Your task to perform on an android device: Go to location settings Image 0: 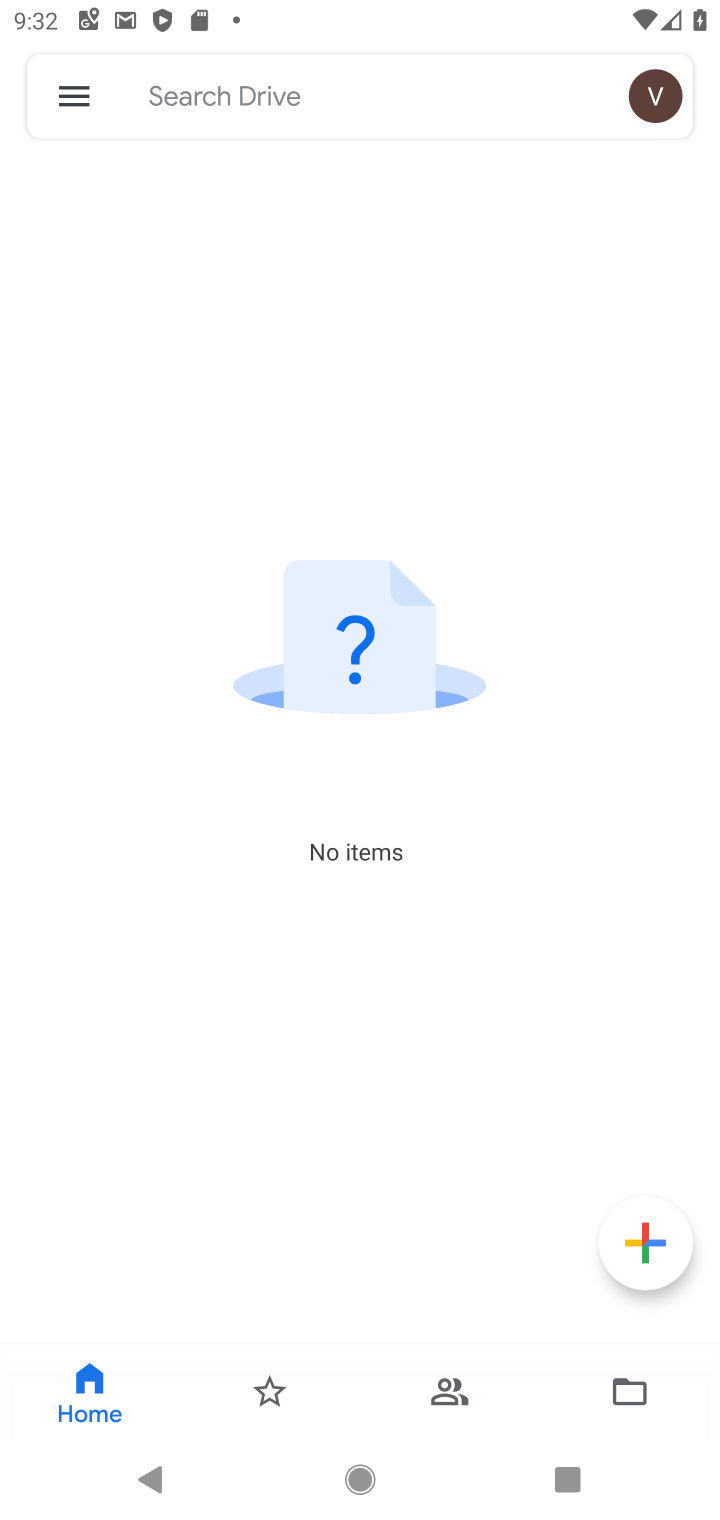
Step 0: press back button
Your task to perform on an android device: Go to location settings Image 1: 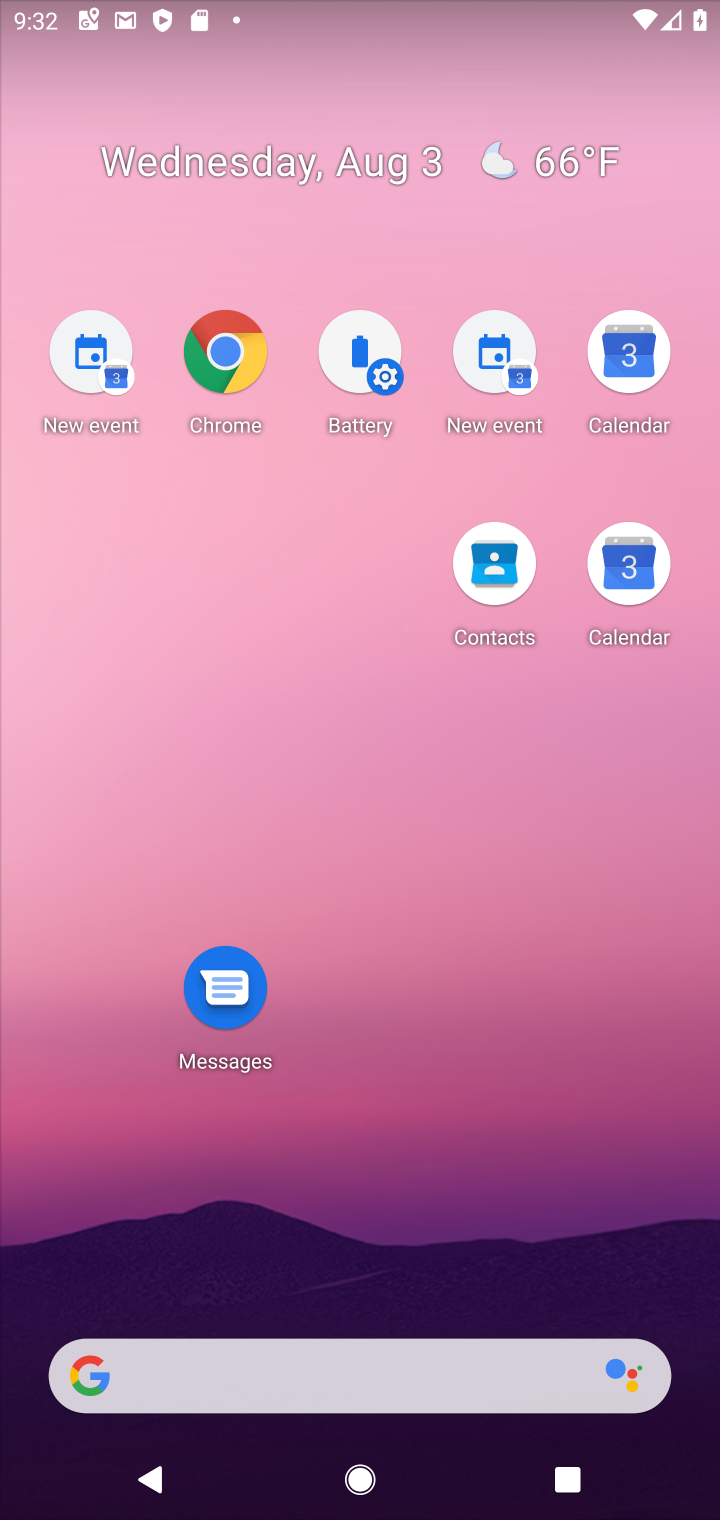
Step 1: drag from (362, 1376) to (321, 479)
Your task to perform on an android device: Go to location settings Image 2: 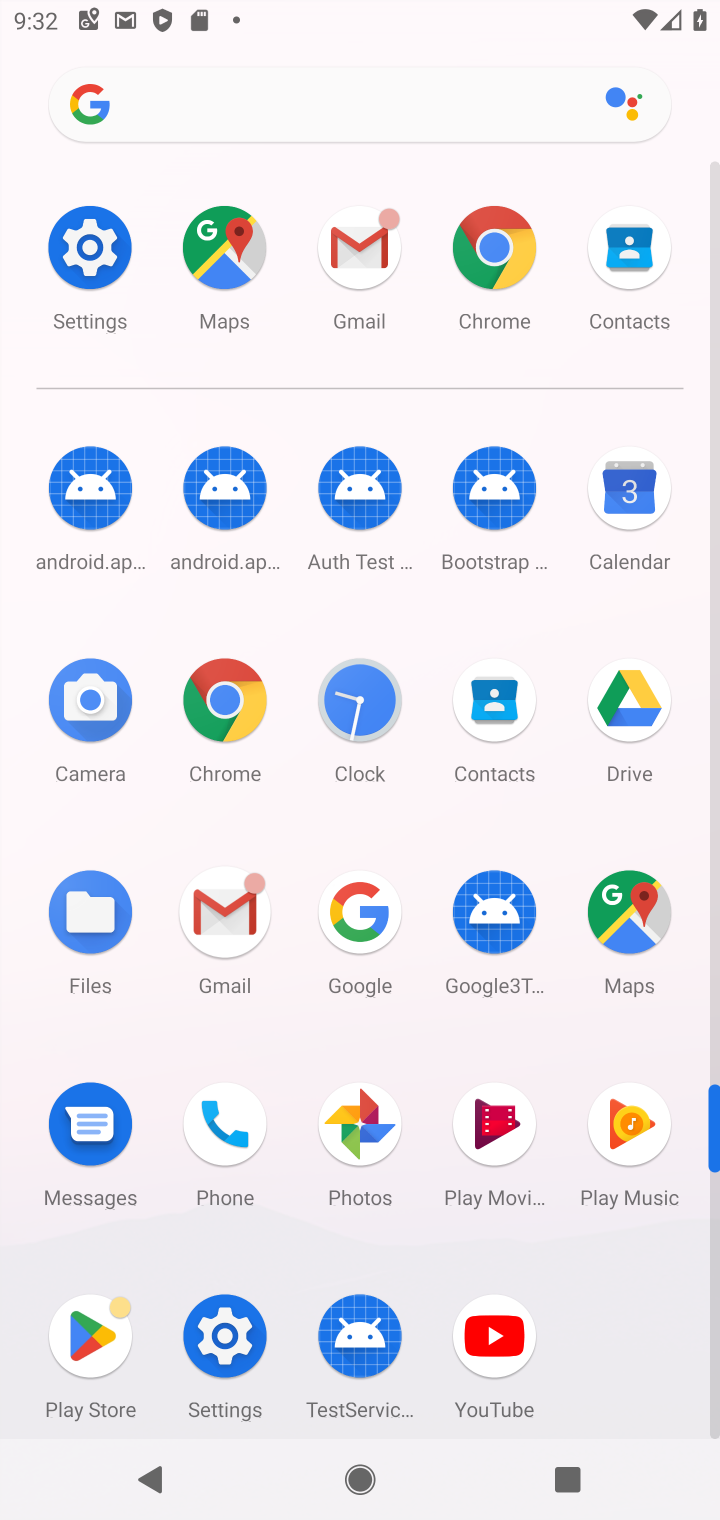
Step 2: click (70, 252)
Your task to perform on an android device: Go to location settings Image 3: 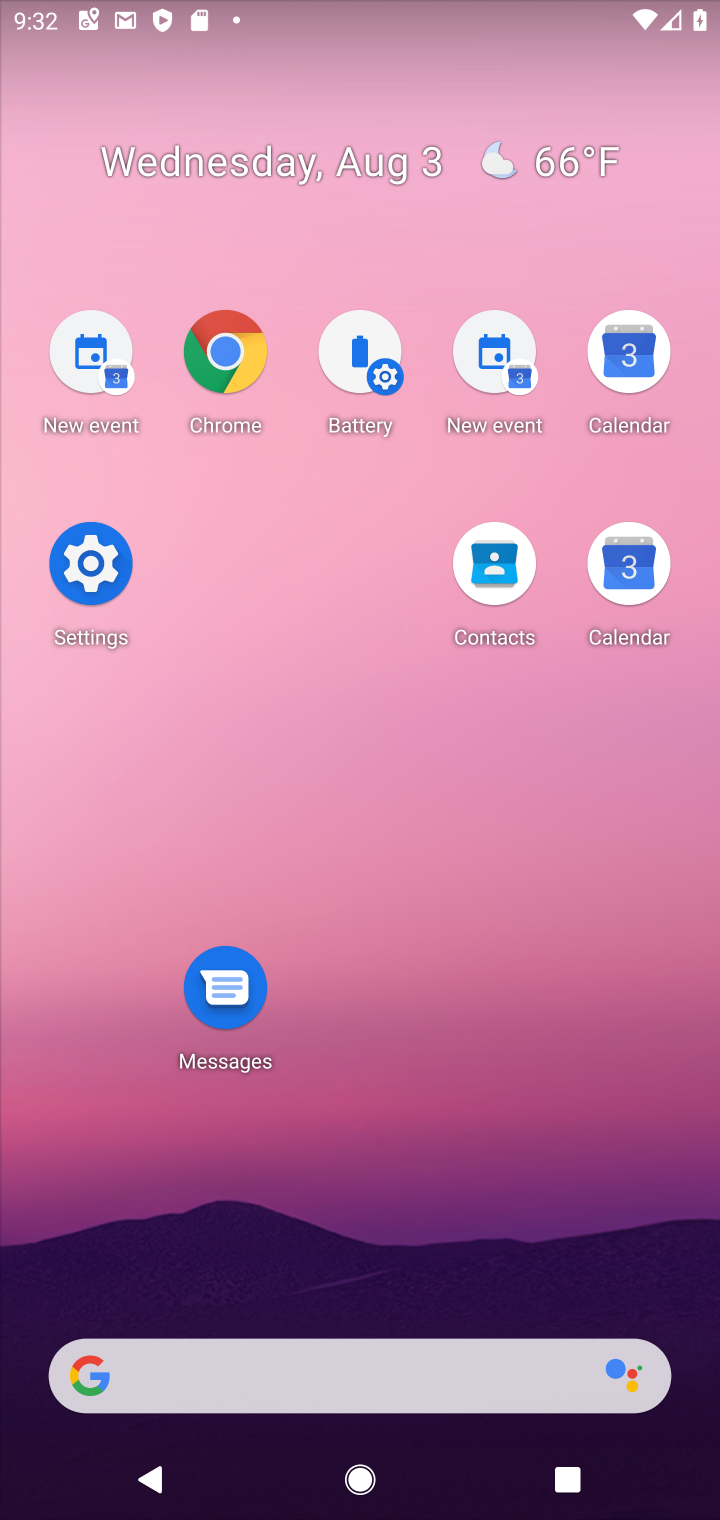
Step 3: drag from (255, 20) to (397, 278)
Your task to perform on an android device: Go to location settings Image 4: 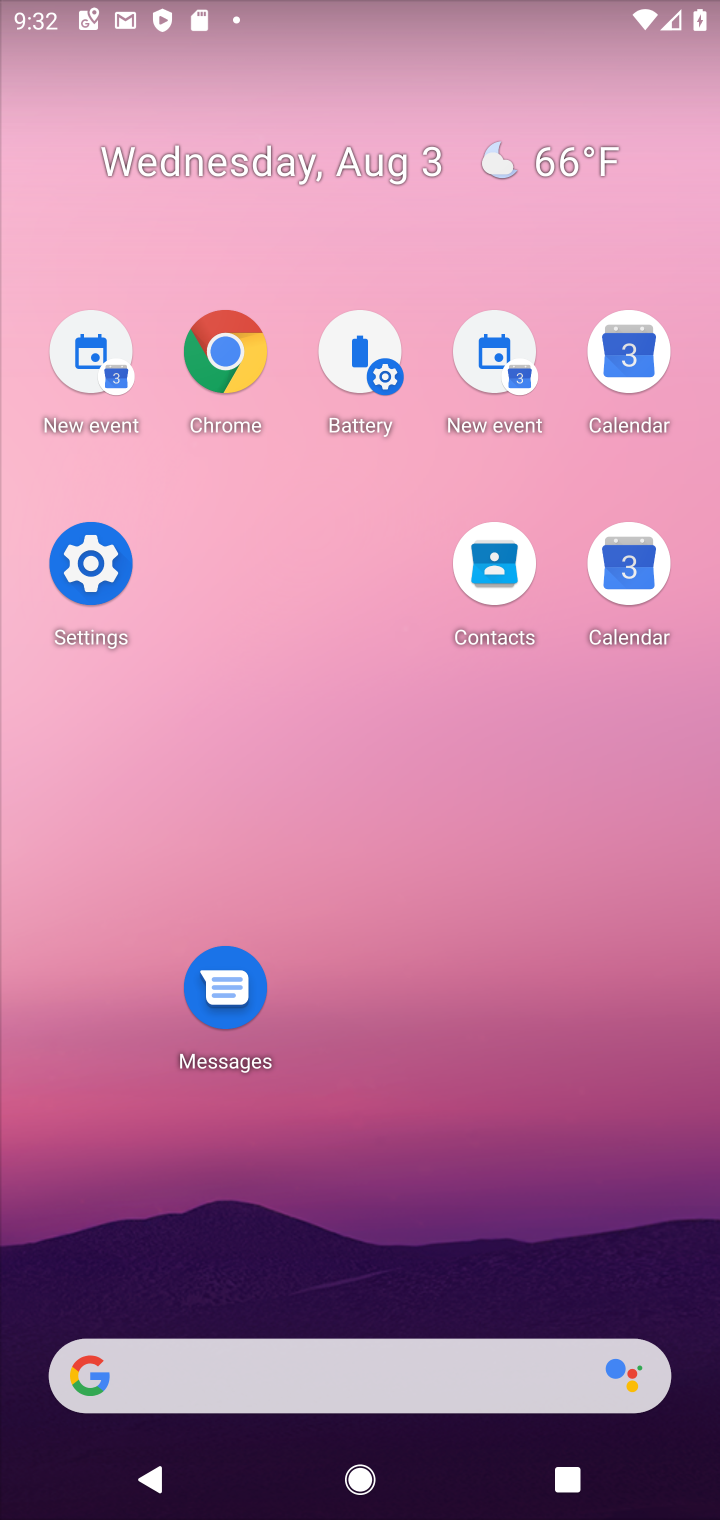
Step 4: drag from (373, 391) to (76, 234)
Your task to perform on an android device: Go to location settings Image 5: 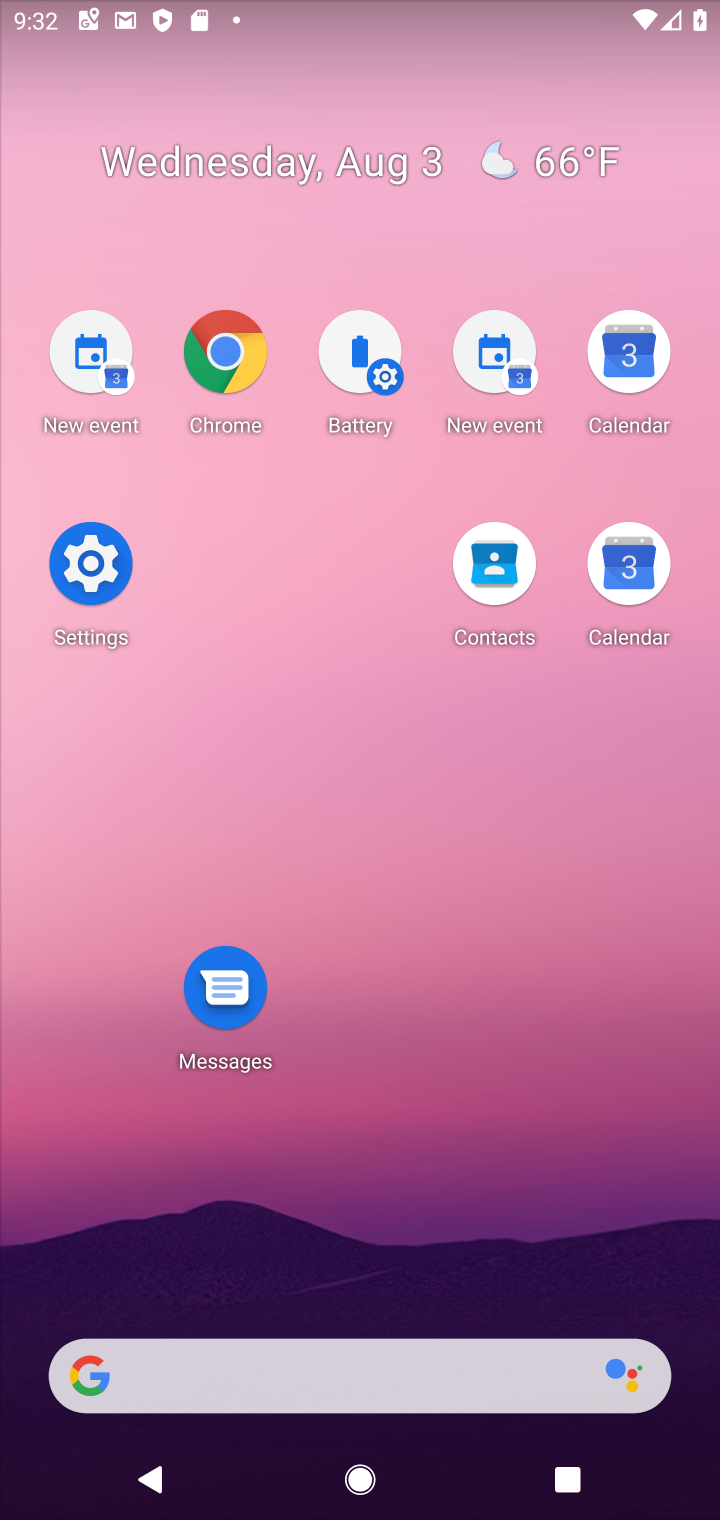
Step 5: drag from (489, 1159) to (538, 376)
Your task to perform on an android device: Go to location settings Image 6: 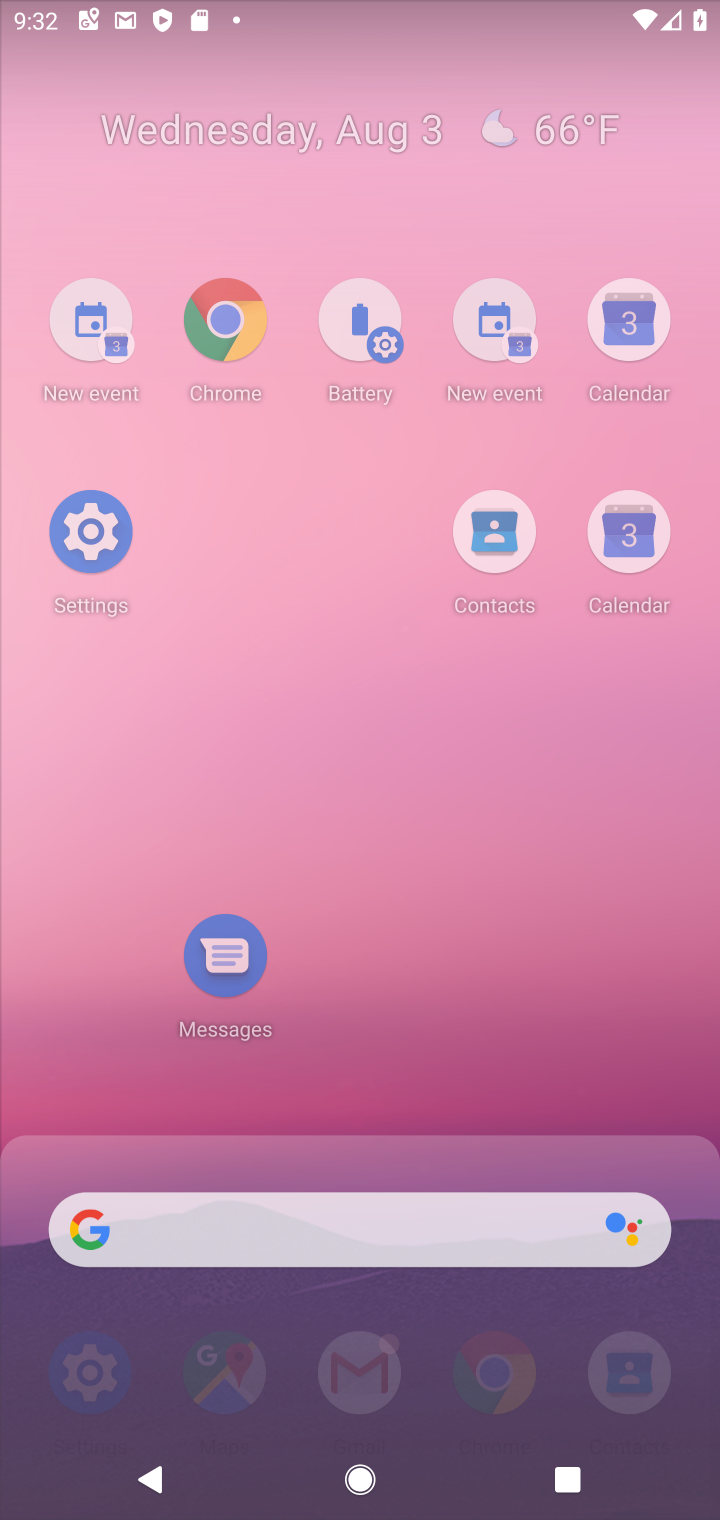
Step 6: drag from (466, 125) to (583, 272)
Your task to perform on an android device: Go to location settings Image 7: 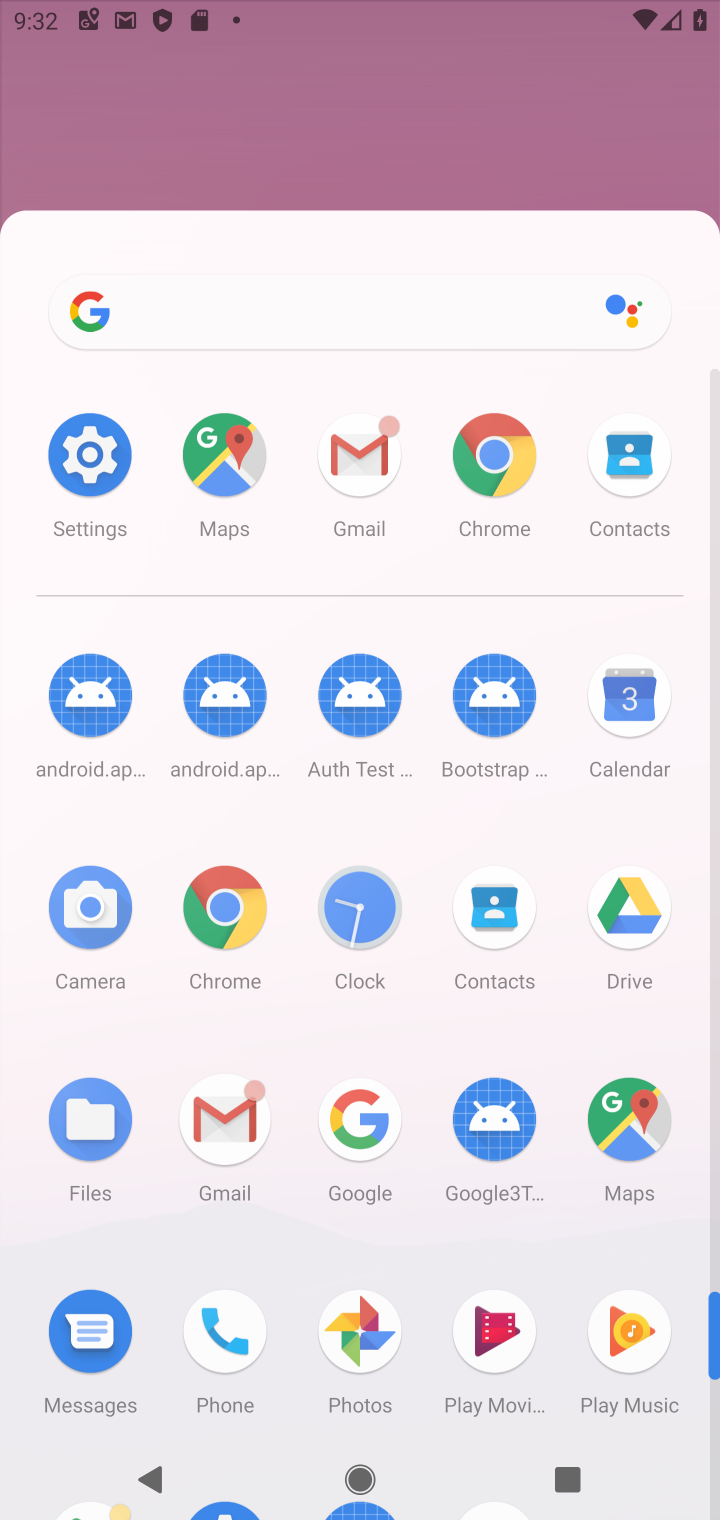
Step 7: drag from (491, 683) to (380, 296)
Your task to perform on an android device: Go to location settings Image 8: 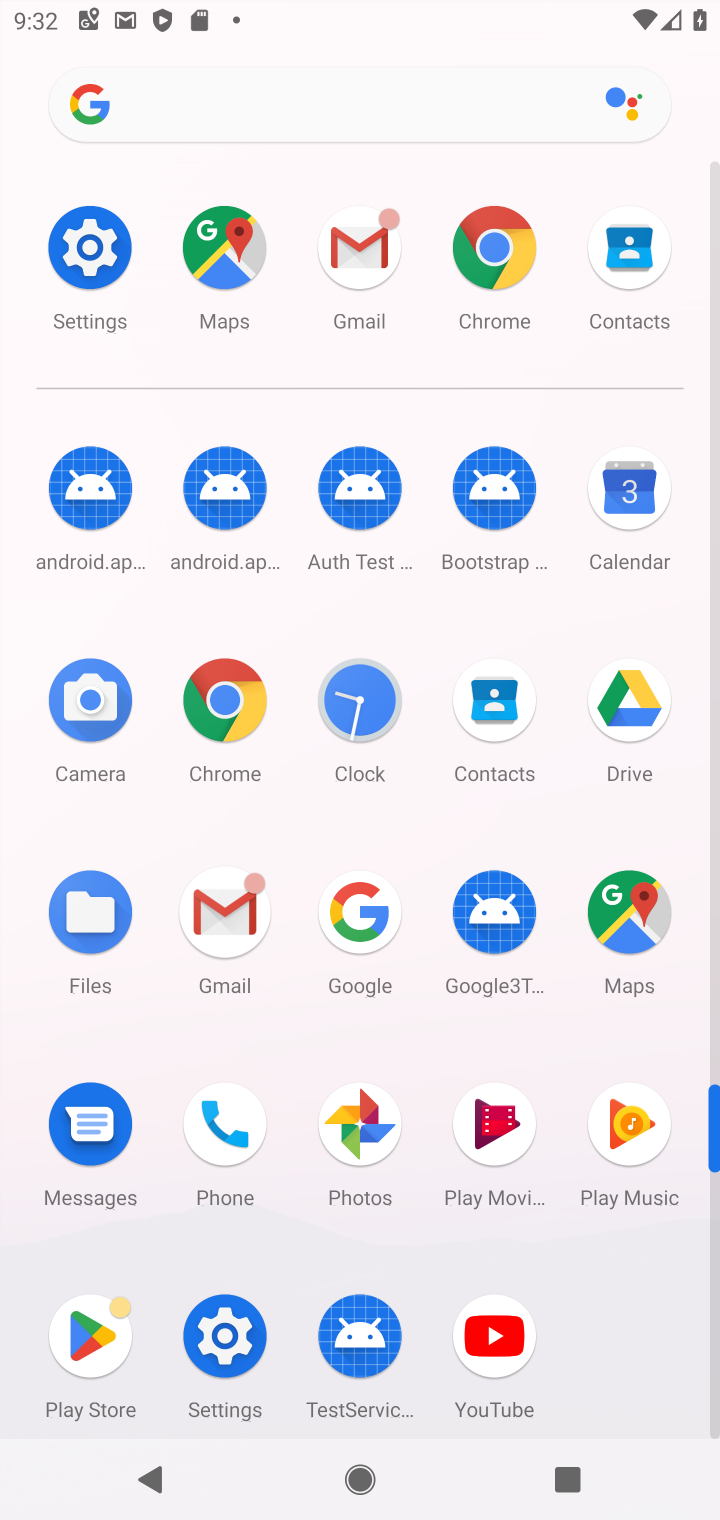
Step 8: drag from (87, 266) to (311, 0)
Your task to perform on an android device: Go to location settings Image 9: 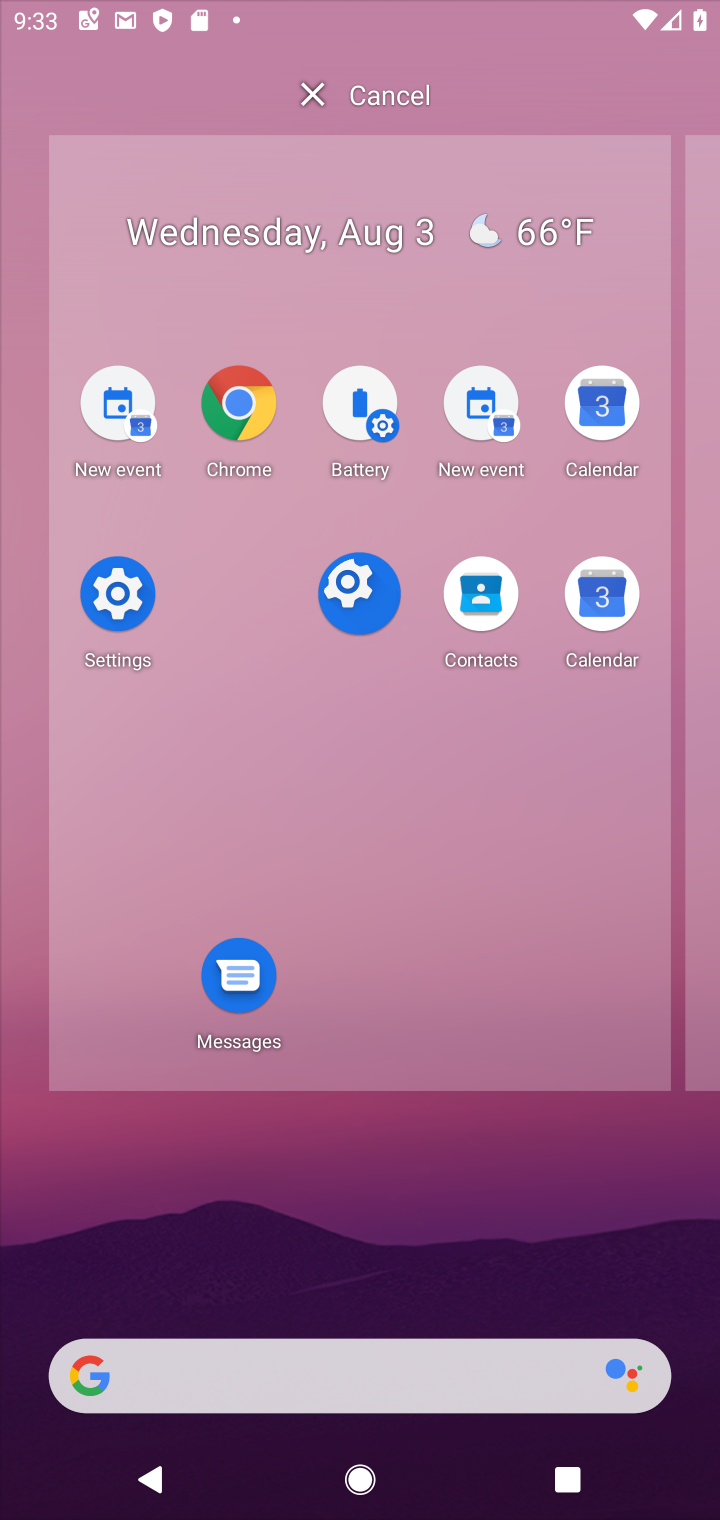
Step 9: click (310, 90)
Your task to perform on an android device: Go to location settings Image 10: 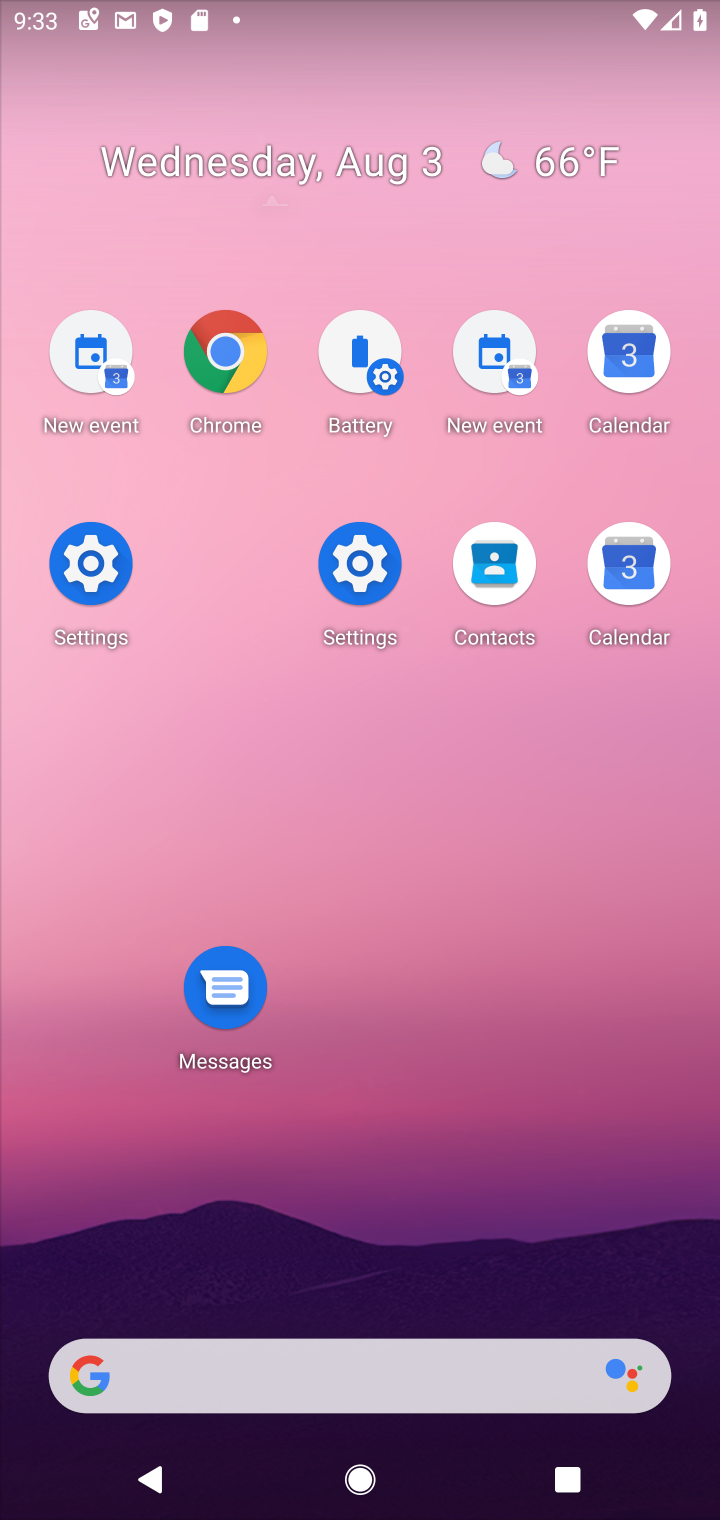
Step 10: click (312, 94)
Your task to perform on an android device: Go to location settings Image 11: 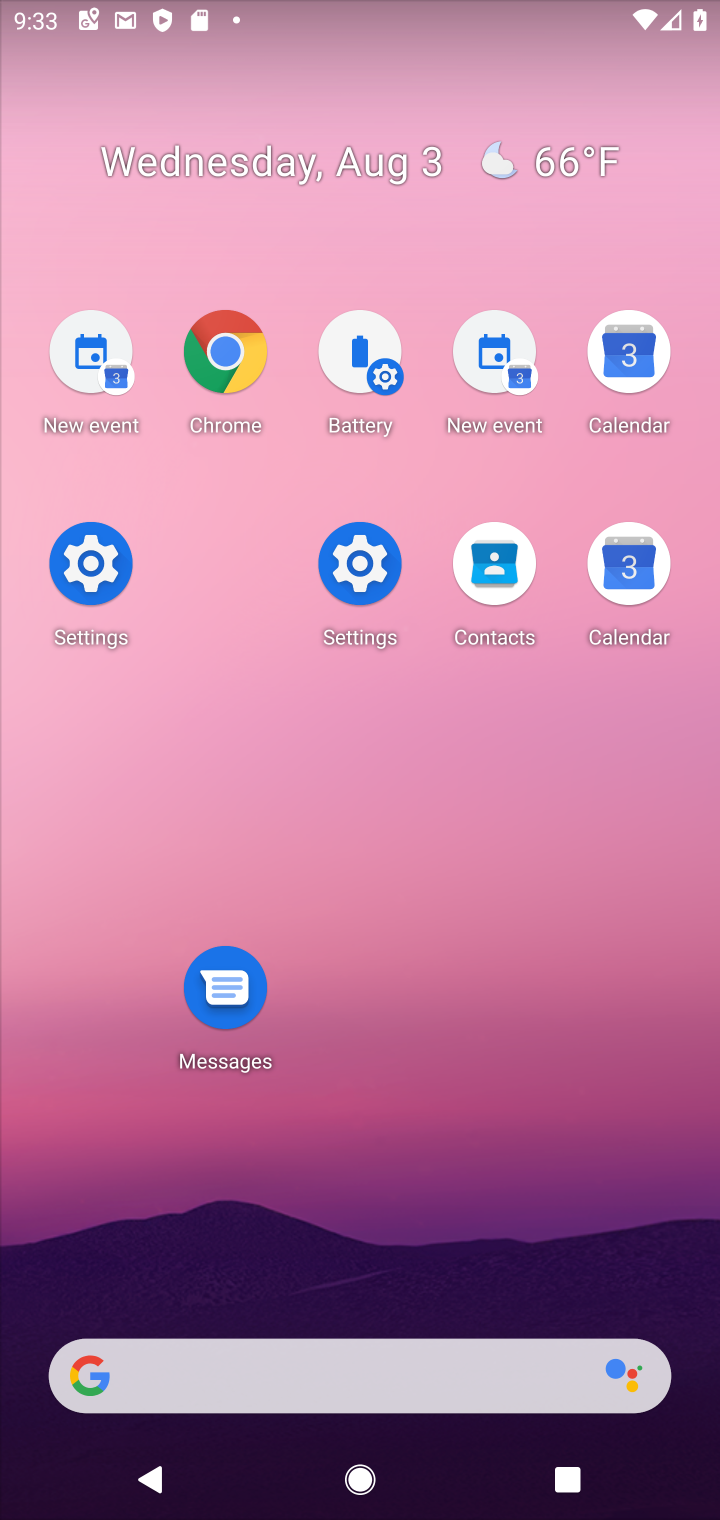
Step 11: drag from (378, 578) to (463, 361)
Your task to perform on an android device: Go to location settings Image 12: 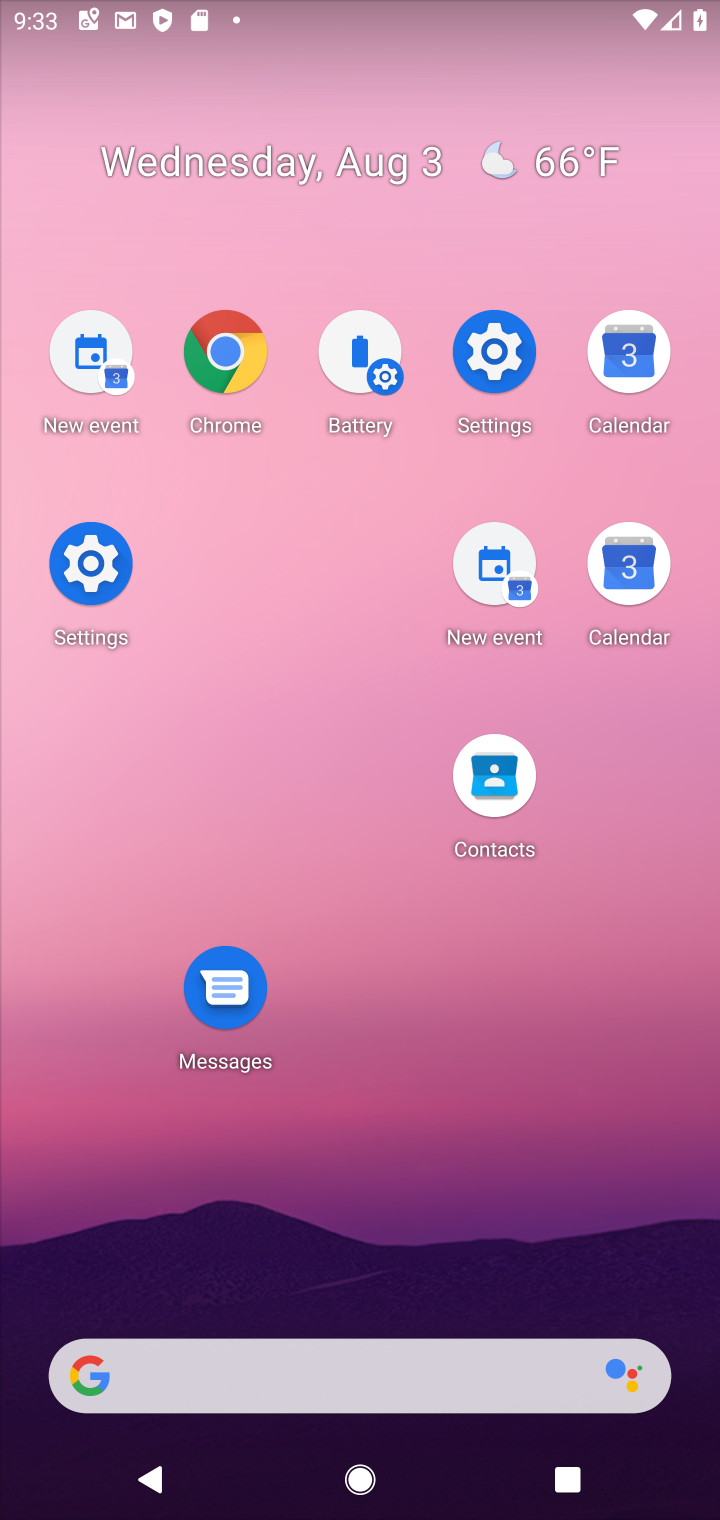
Step 12: click (293, 123)
Your task to perform on an android device: Go to location settings Image 13: 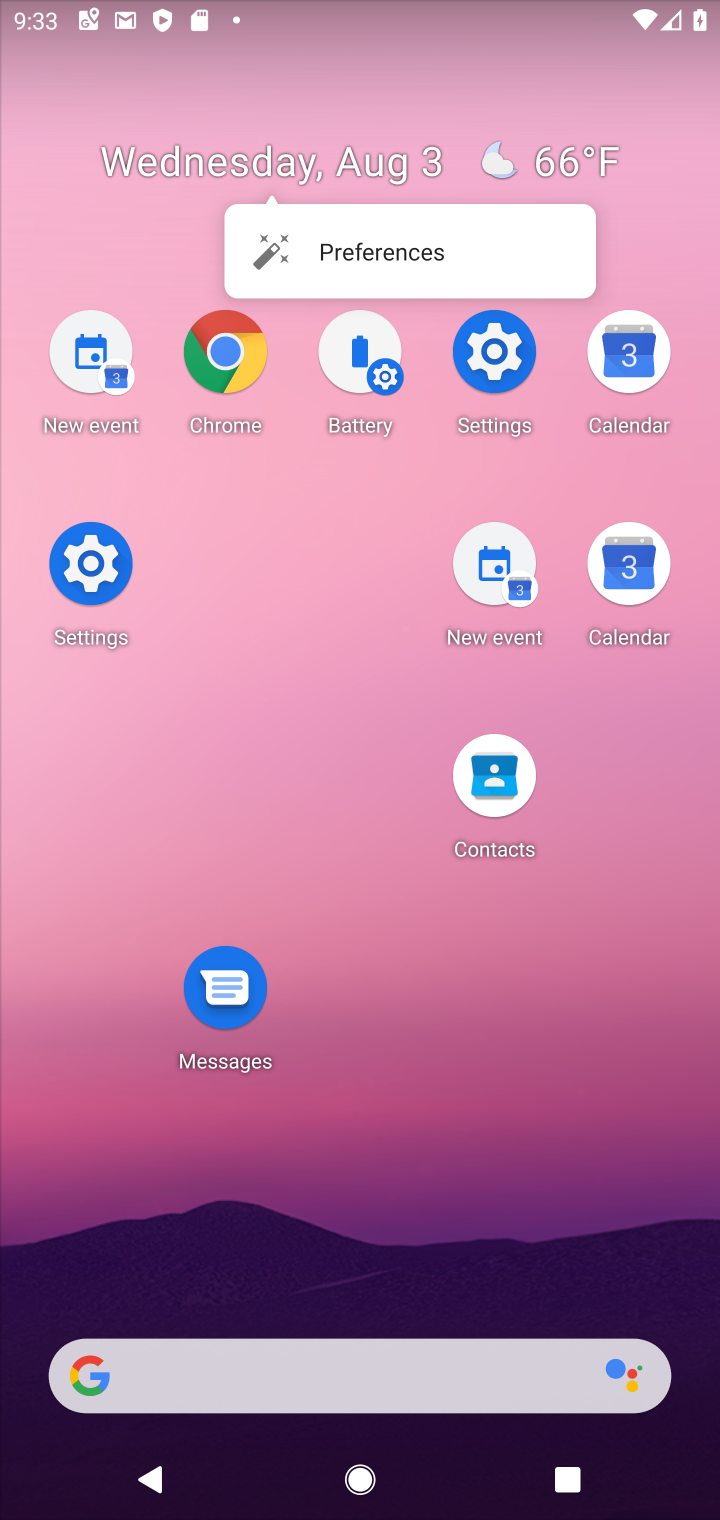
Step 13: click (490, 348)
Your task to perform on an android device: Go to location settings Image 14: 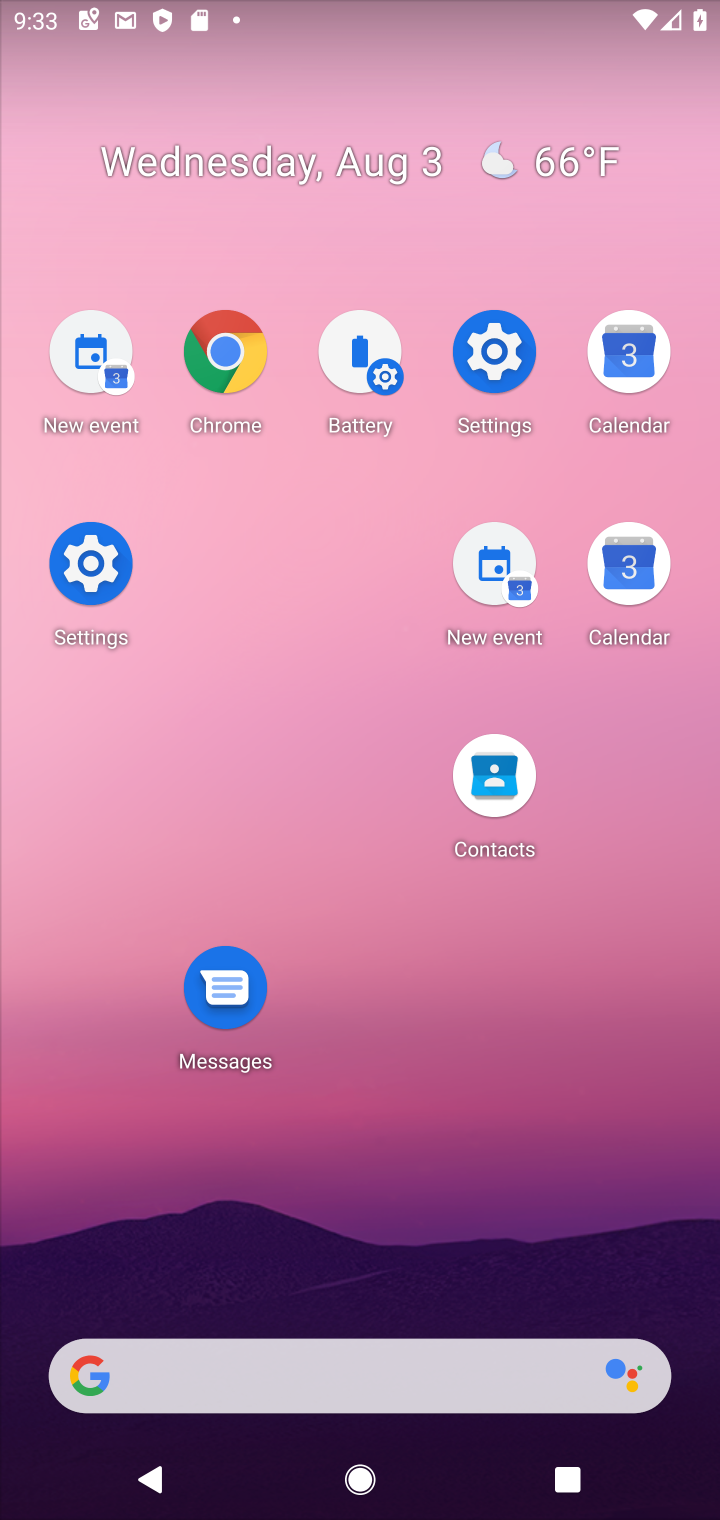
Step 14: click (490, 348)
Your task to perform on an android device: Go to location settings Image 15: 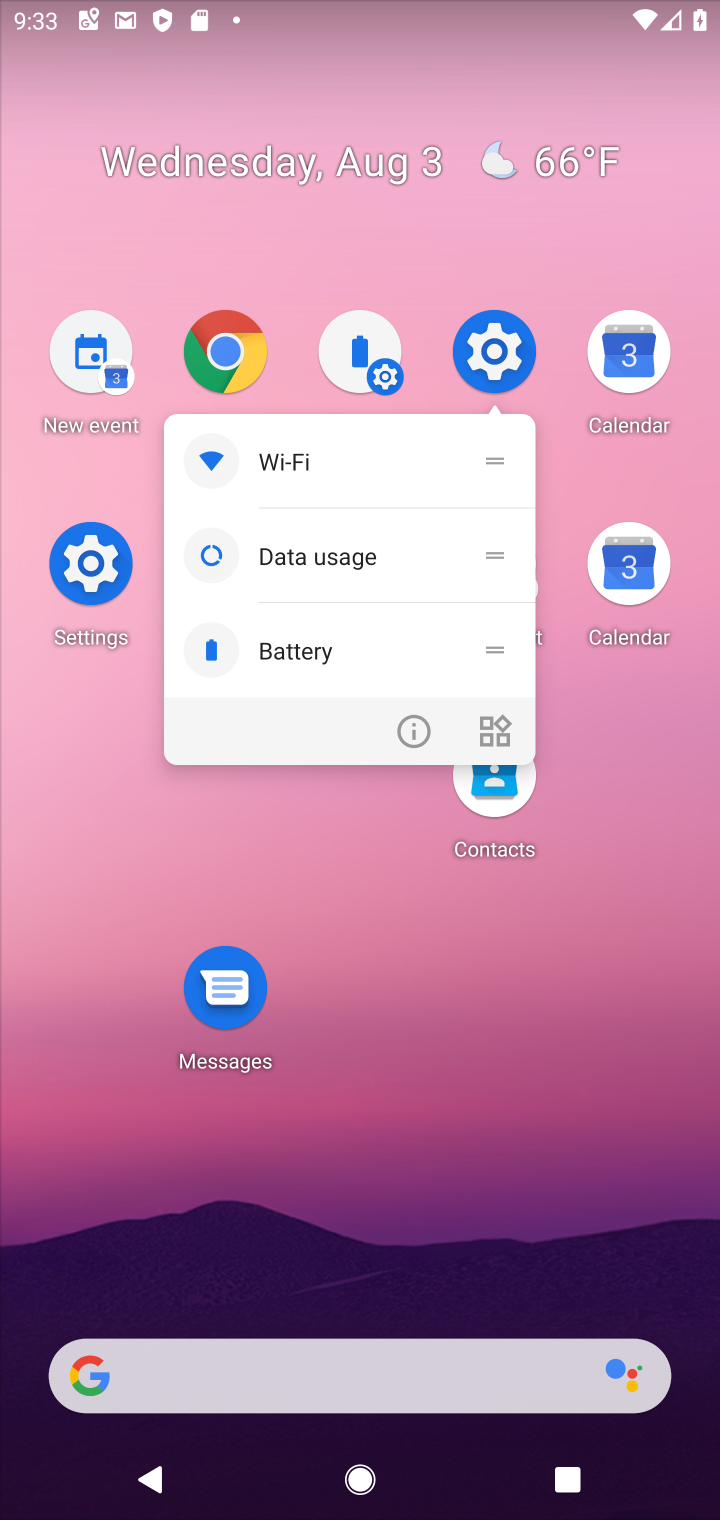
Step 15: click (481, 328)
Your task to perform on an android device: Go to location settings Image 16: 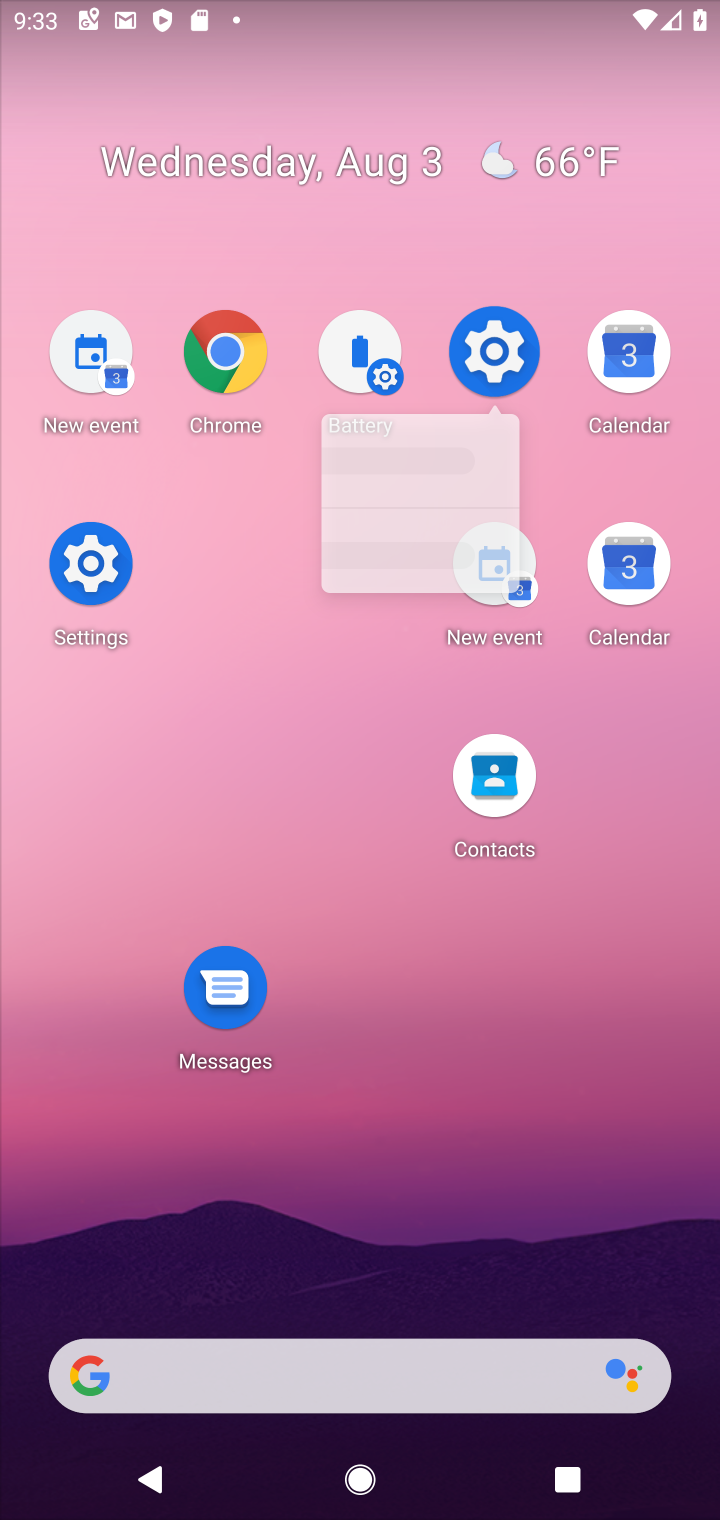
Step 16: click (522, 337)
Your task to perform on an android device: Go to location settings Image 17: 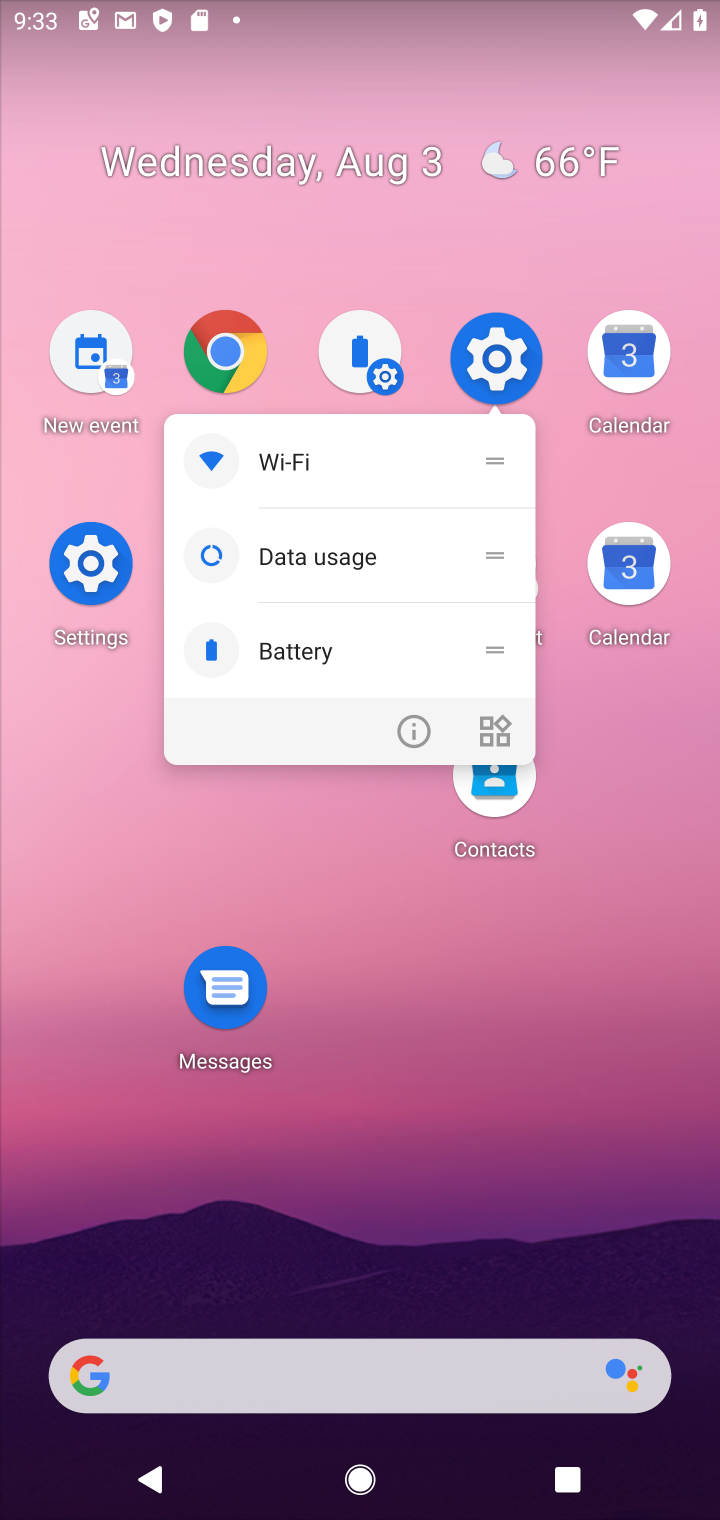
Step 17: click (510, 224)
Your task to perform on an android device: Go to location settings Image 18: 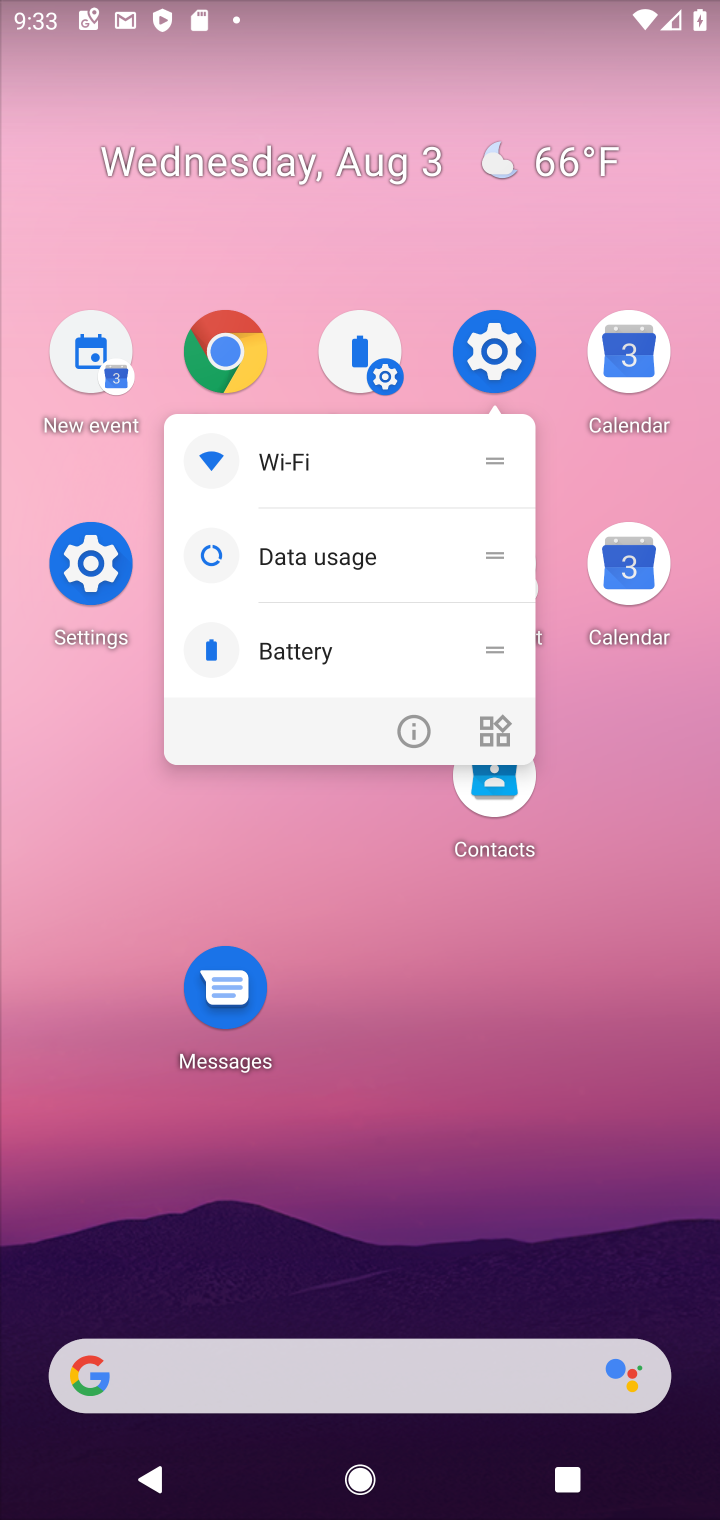
Step 18: click (290, 470)
Your task to perform on an android device: Go to location settings Image 19: 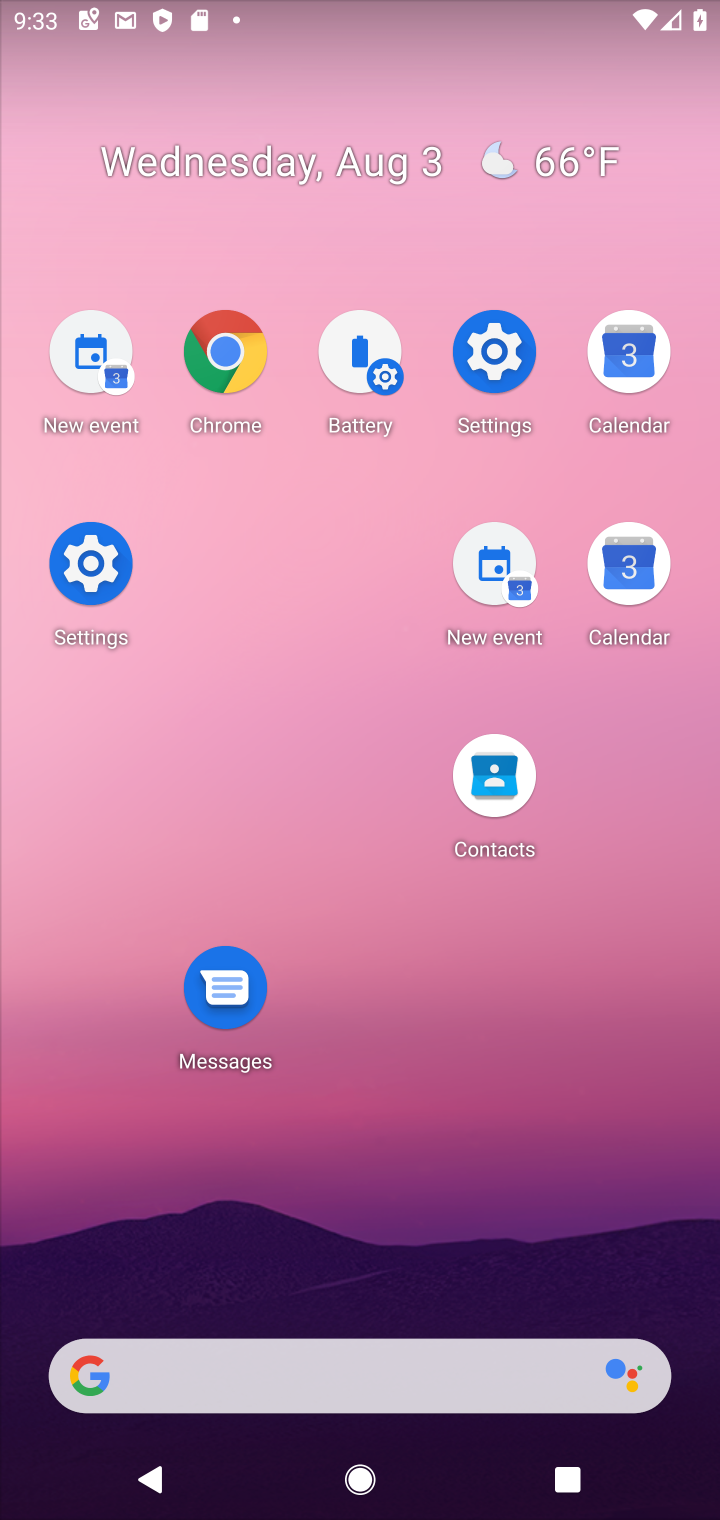
Step 19: click (261, 105)
Your task to perform on an android device: Go to location settings Image 20: 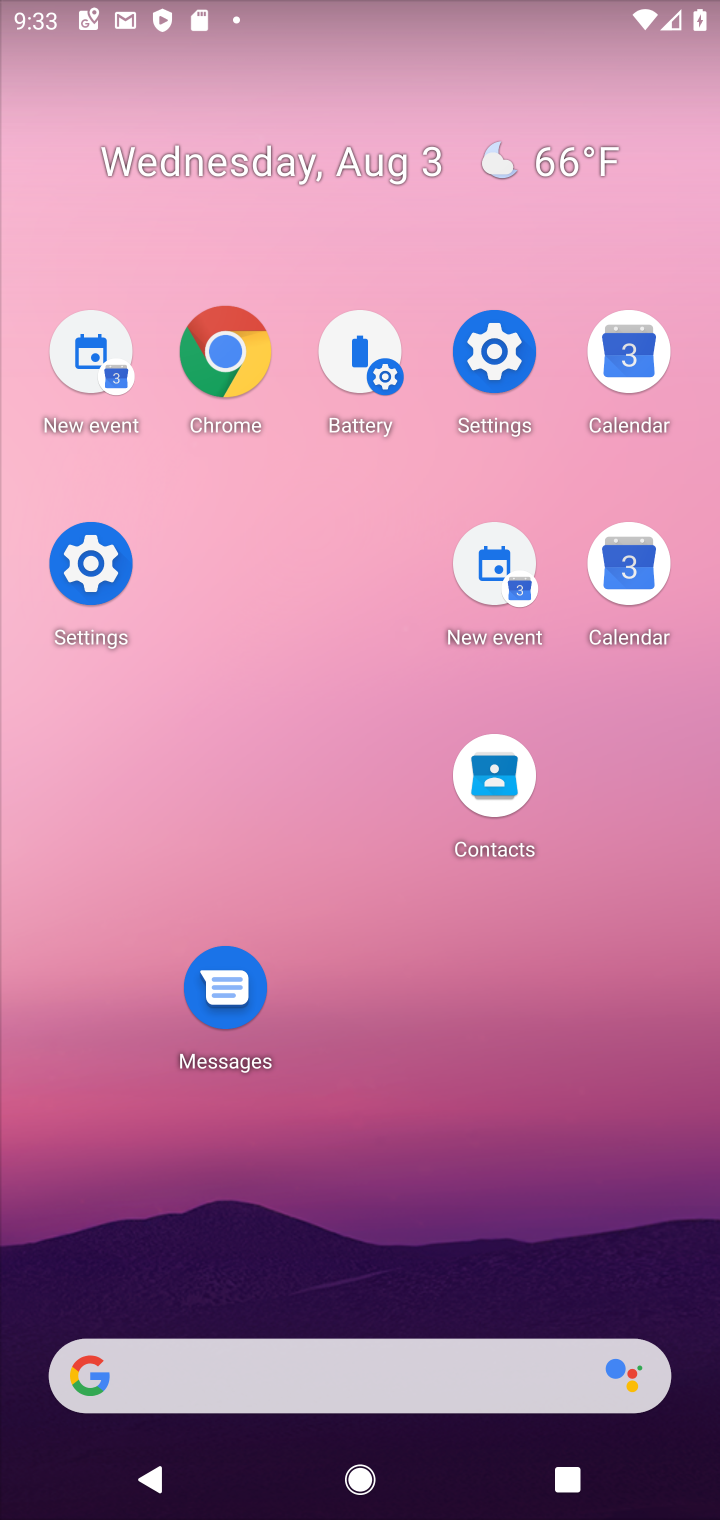
Step 20: click (309, 142)
Your task to perform on an android device: Go to location settings Image 21: 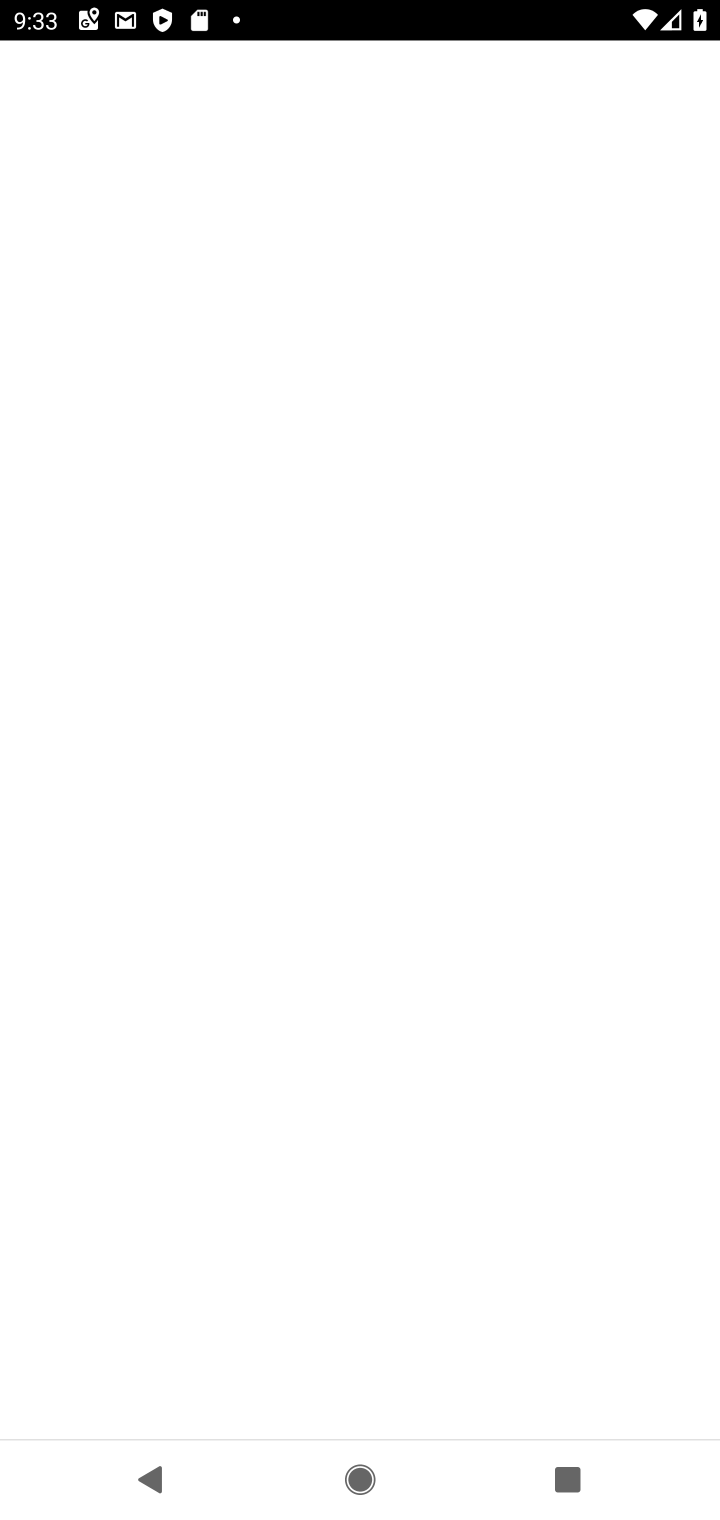
Step 21: click (497, 335)
Your task to perform on an android device: Go to location settings Image 22: 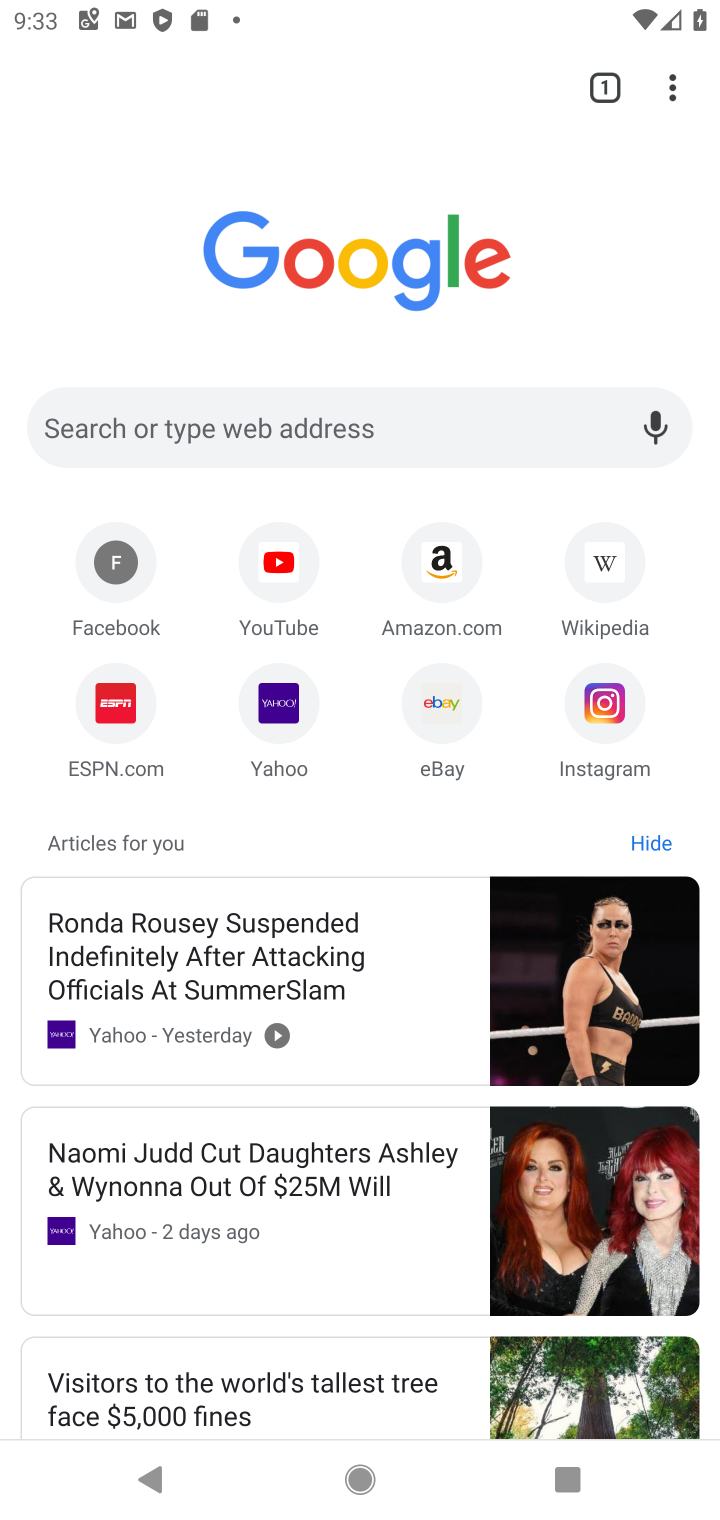
Step 22: press back button
Your task to perform on an android device: Go to location settings Image 23: 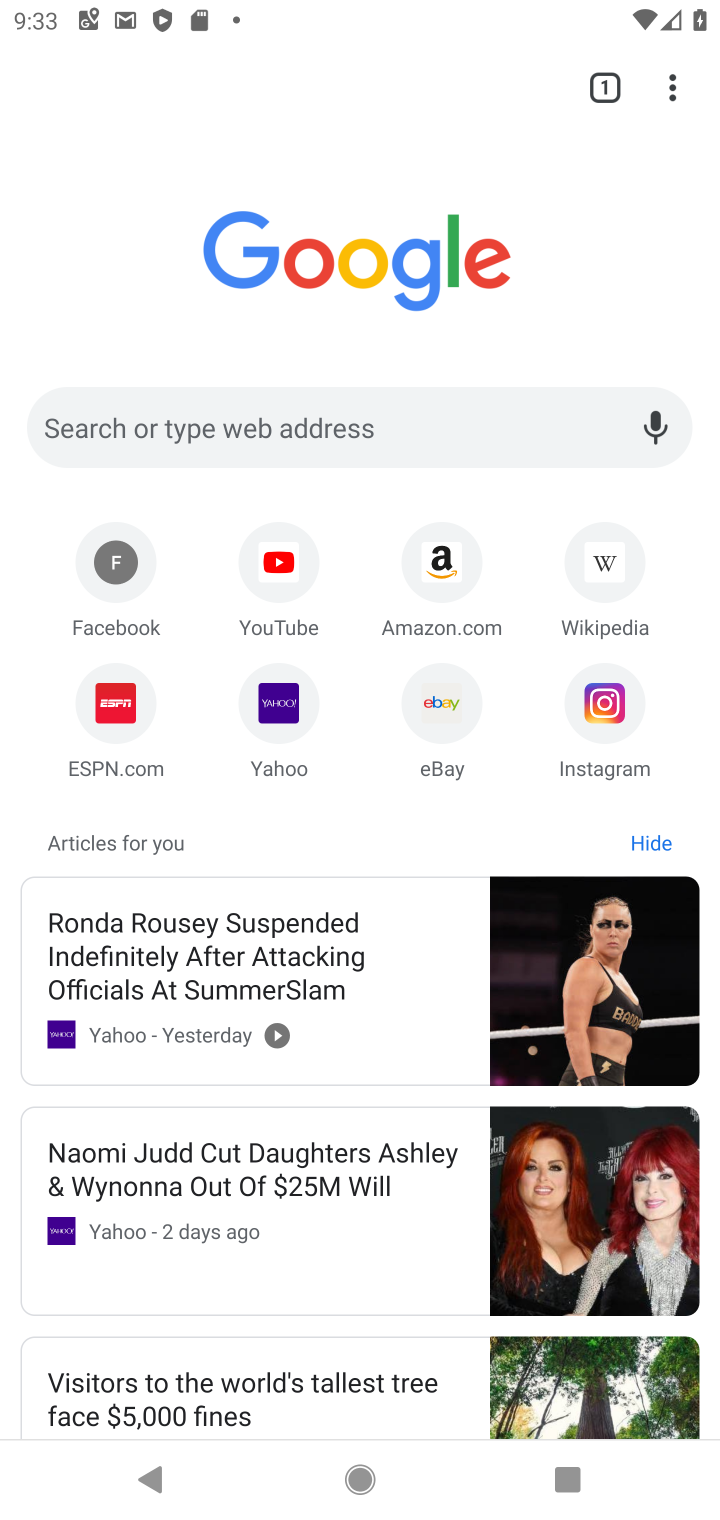
Step 23: press back button
Your task to perform on an android device: Go to location settings Image 24: 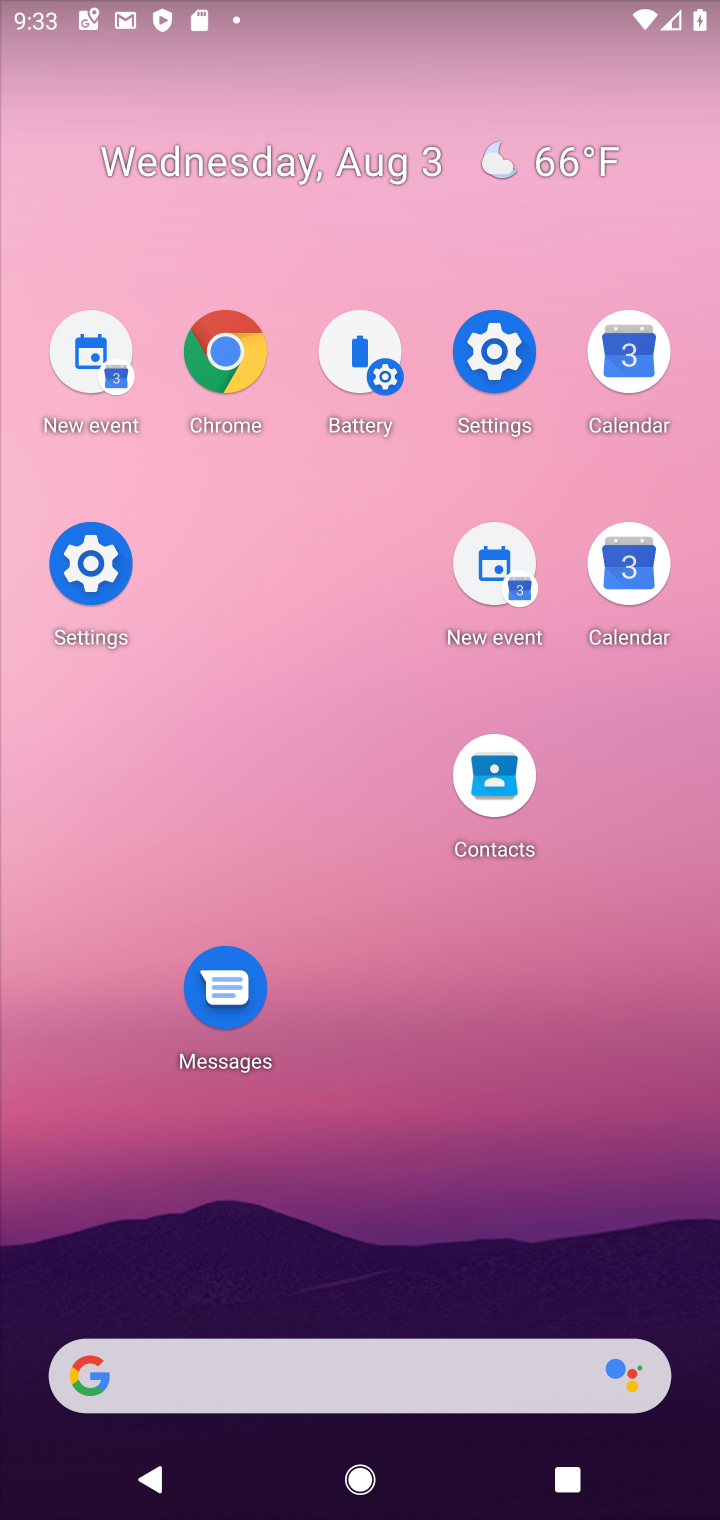
Step 24: press back button
Your task to perform on an android device: Go to location settings Image 25: 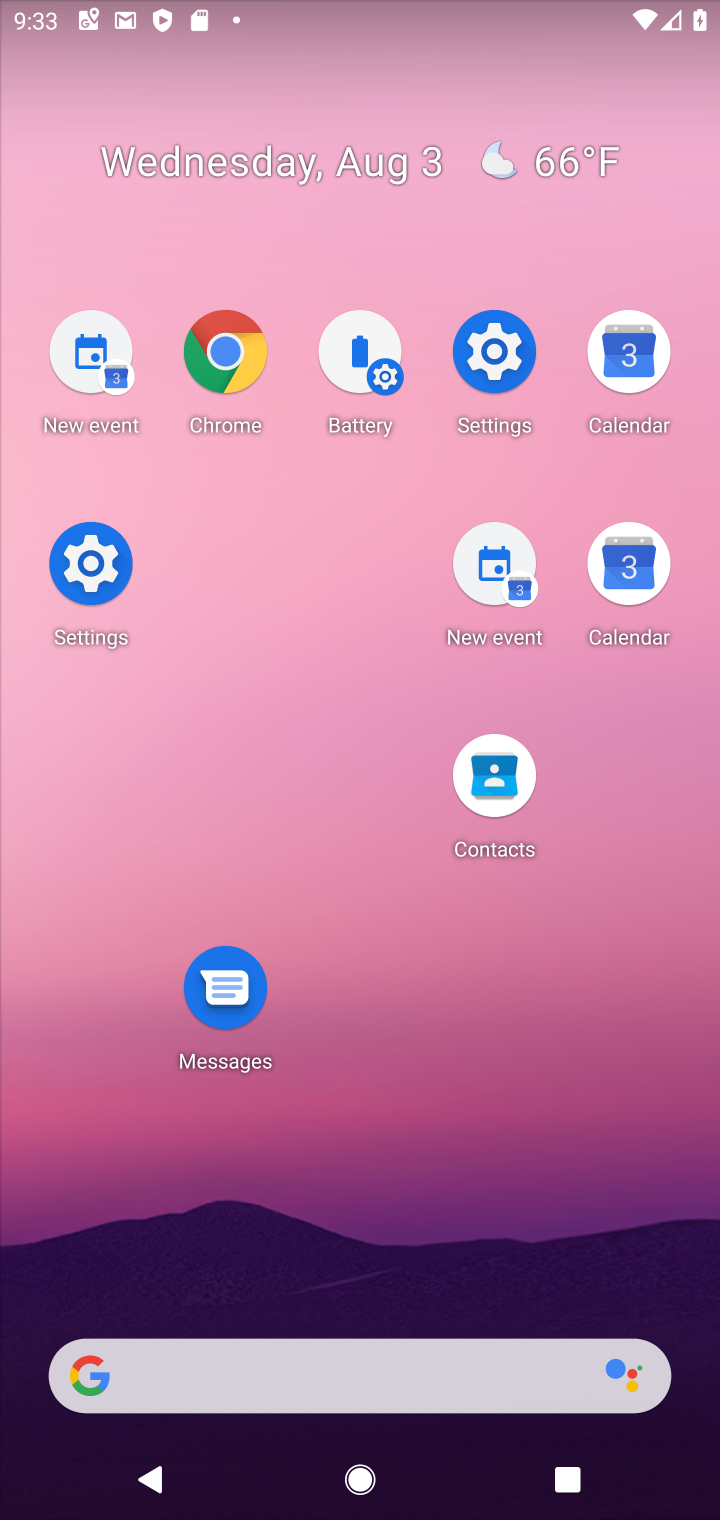
Step 25: click (479, 323)
Your task to perform on an android device: Go to location settings Image 26: 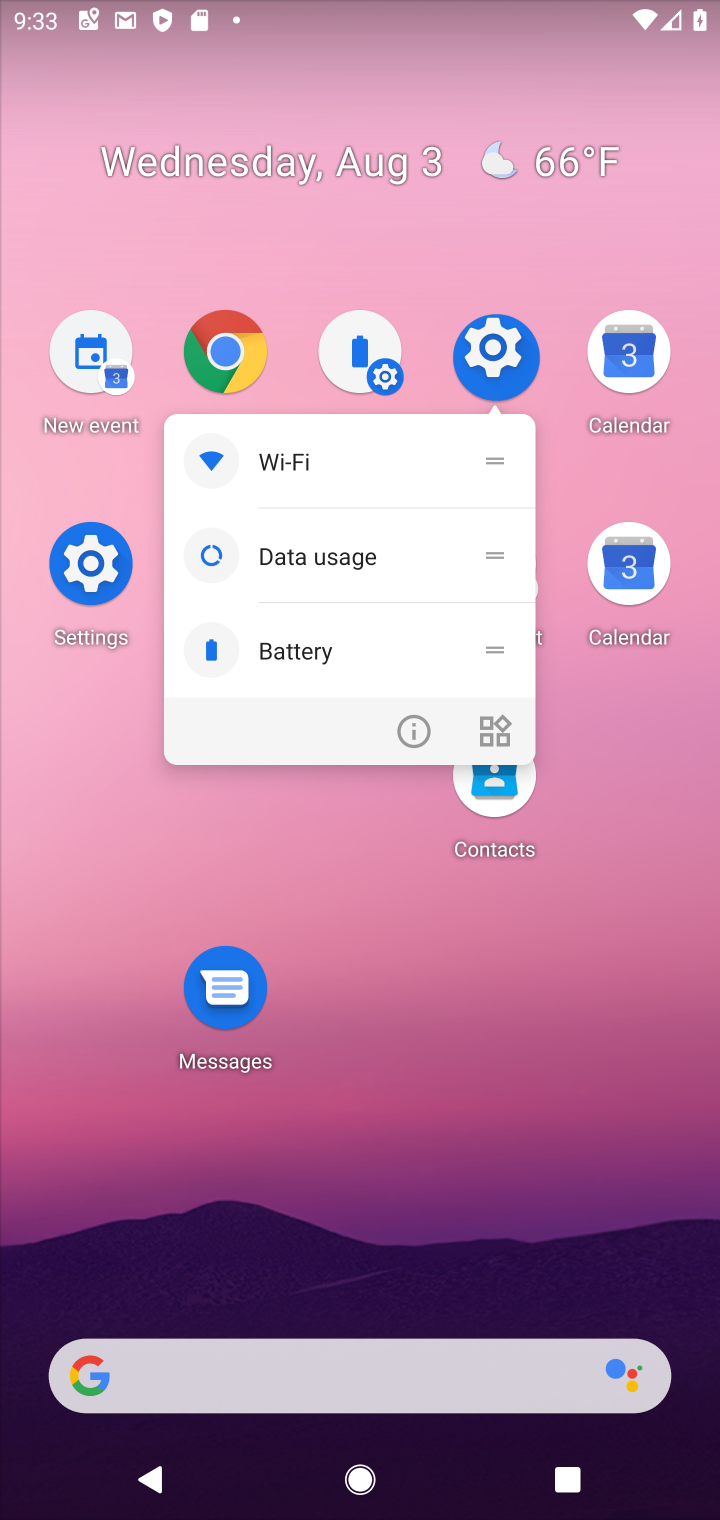
Step 26: click (484, 363)
Your task to perform on an android device: Go to location settings Image 27: 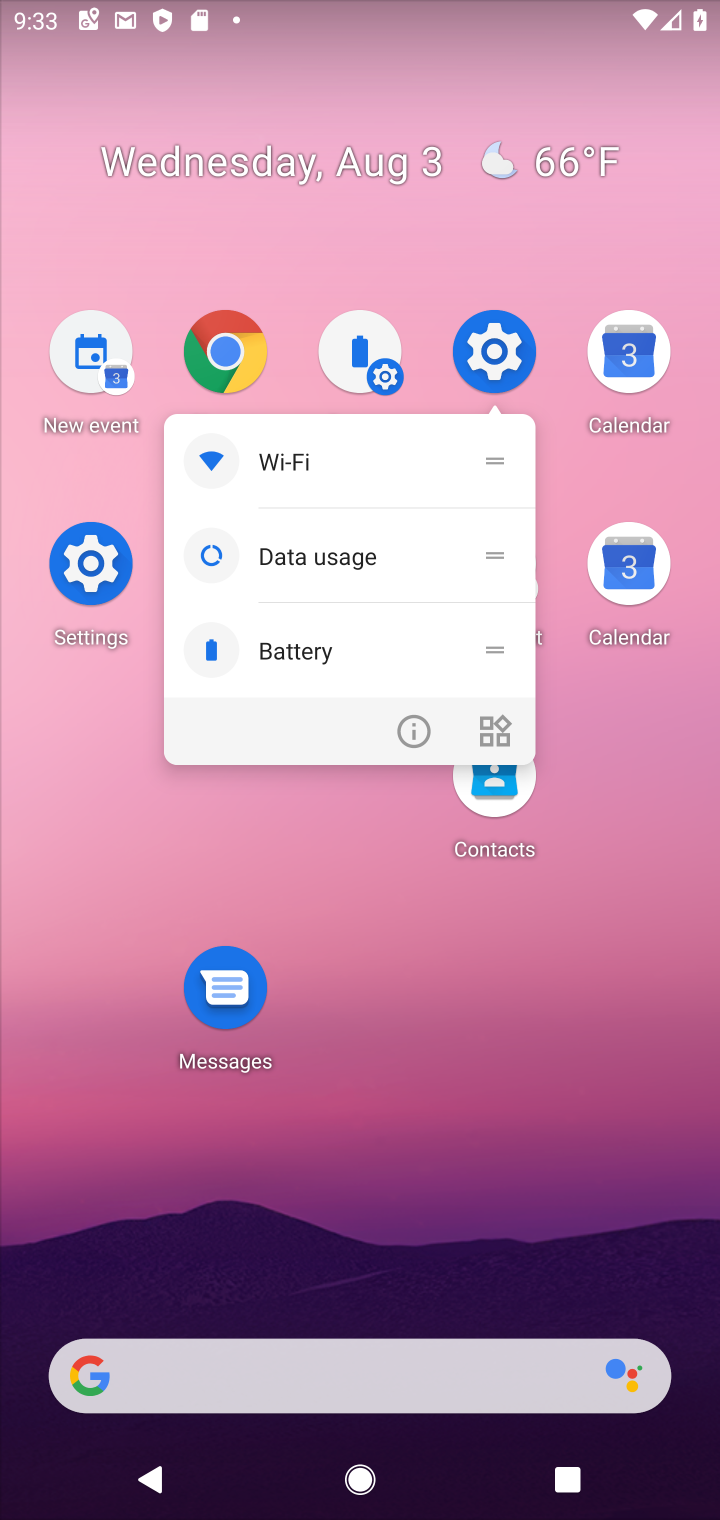
Step 27: click (508, 369)
Your task to perform on an android device: Go to location settings Image 28: 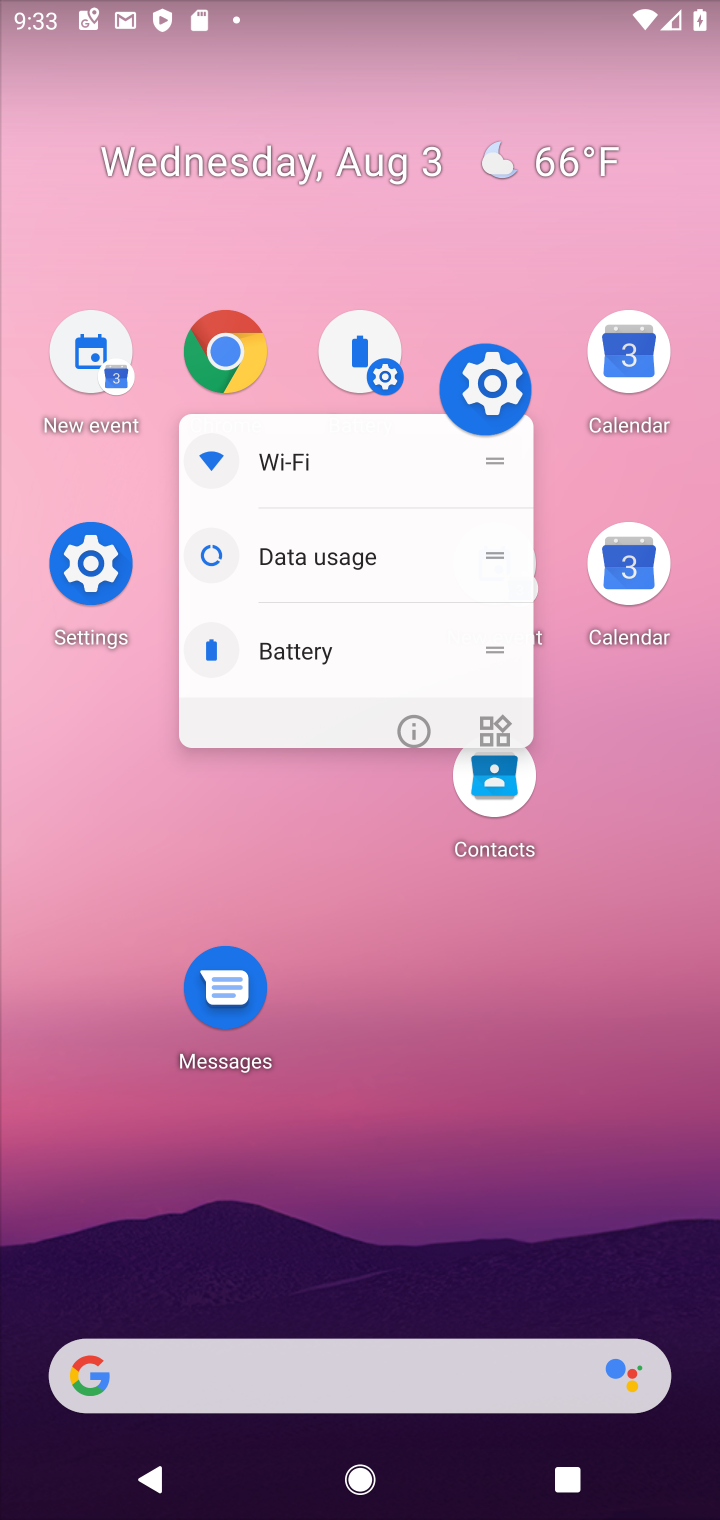
Step 28: click (494, 346)
Your task to perform on an android device: Go to location settings Image 29: 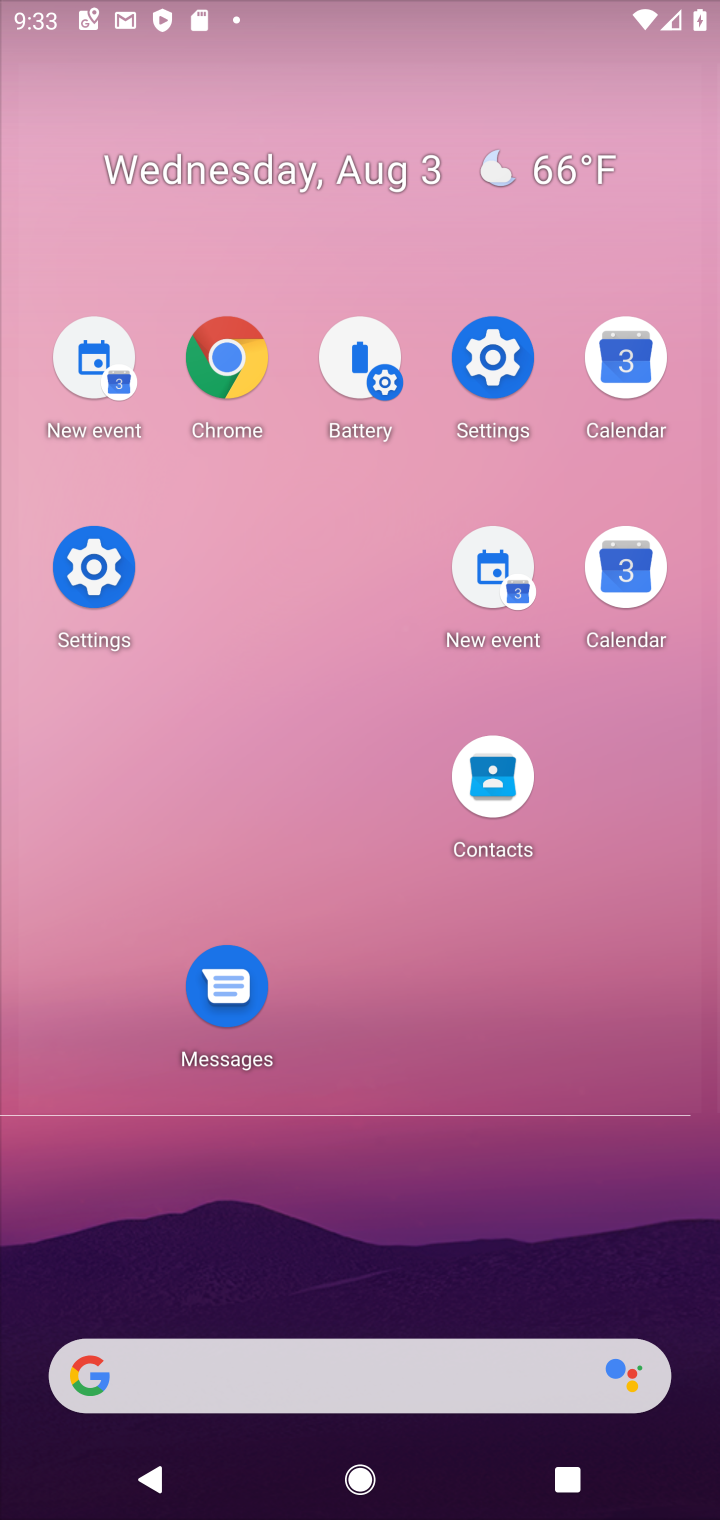
Step 29: click (492, 416)
Your task to perform on an android device: Go to location settings Image 30: 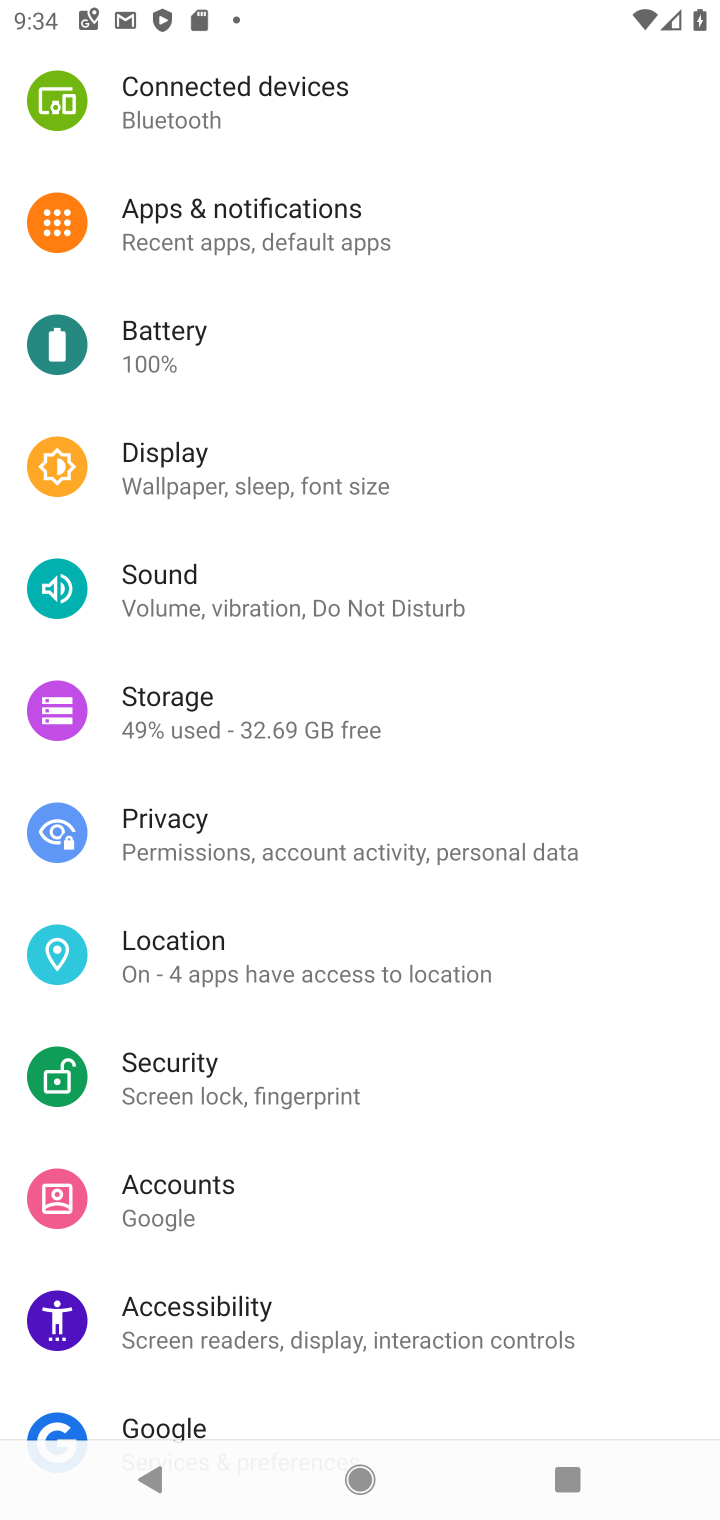
Step 30: click (195, 945)
Your task to perform on an android device: Go to location settings Image 31: 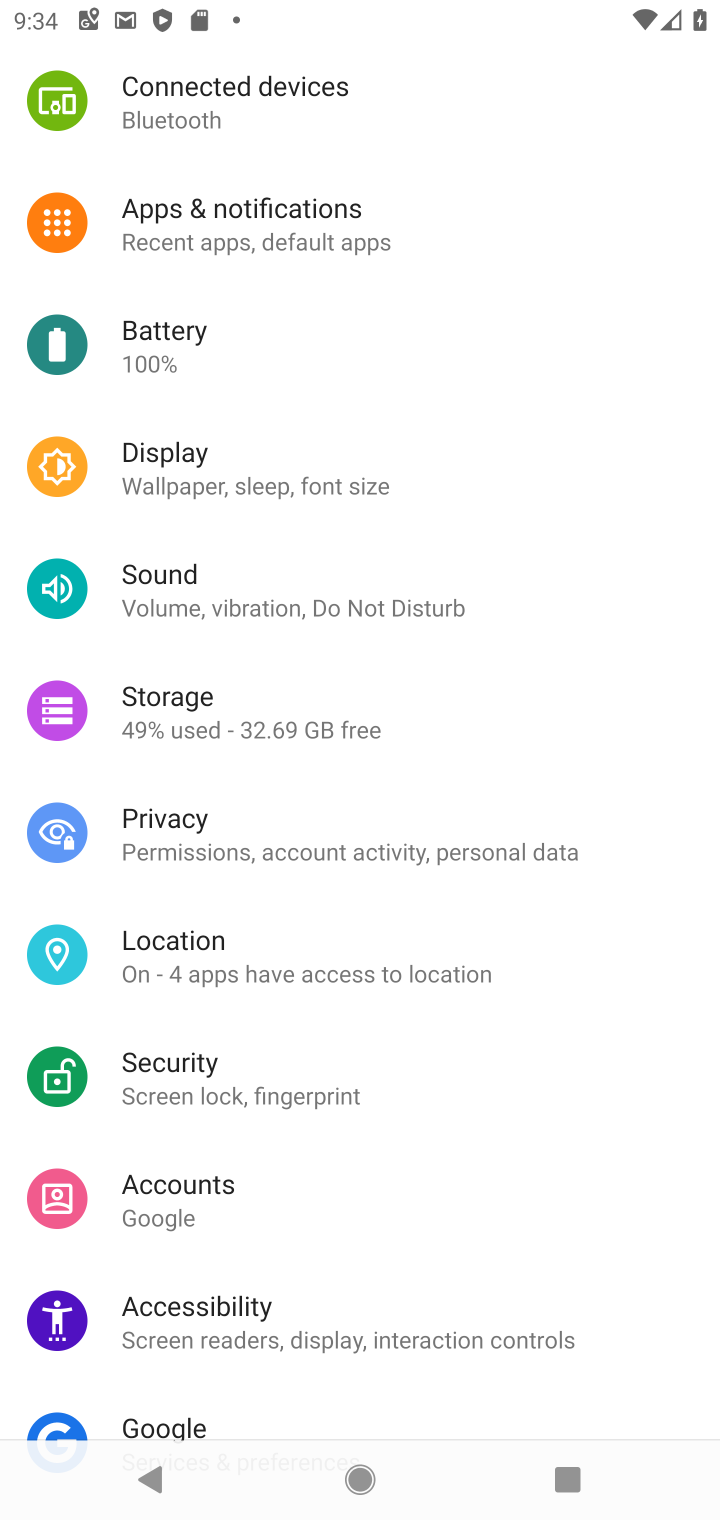
Step 31: click (195, 945)
Your task to perform on an android device: Go to location settings Image 32: 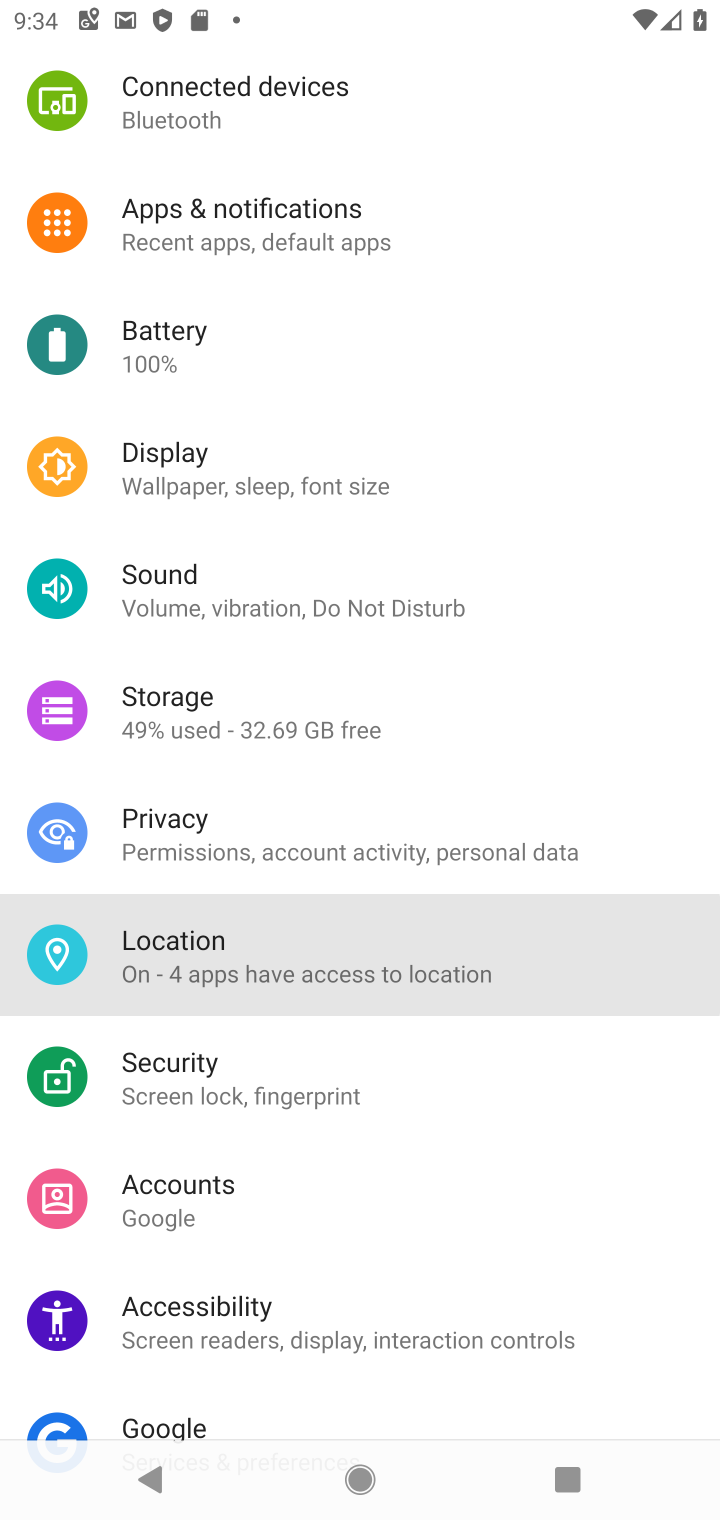
Step 32: click (195, 945)
Your task to perform on an android device: Go to location settings Image 33: 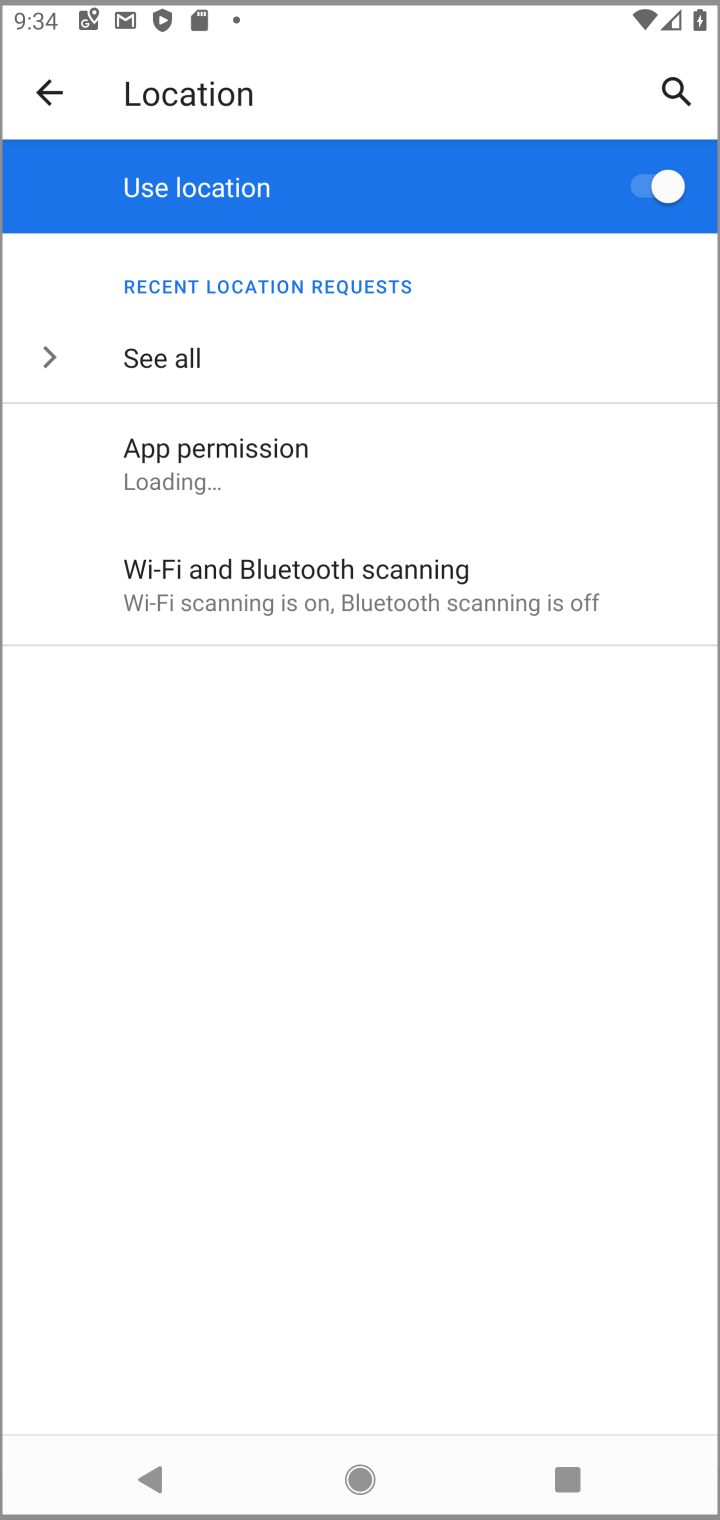
Step 33: click (197, 949)
Your task to perform on an android device: Go to location settings Image 34: 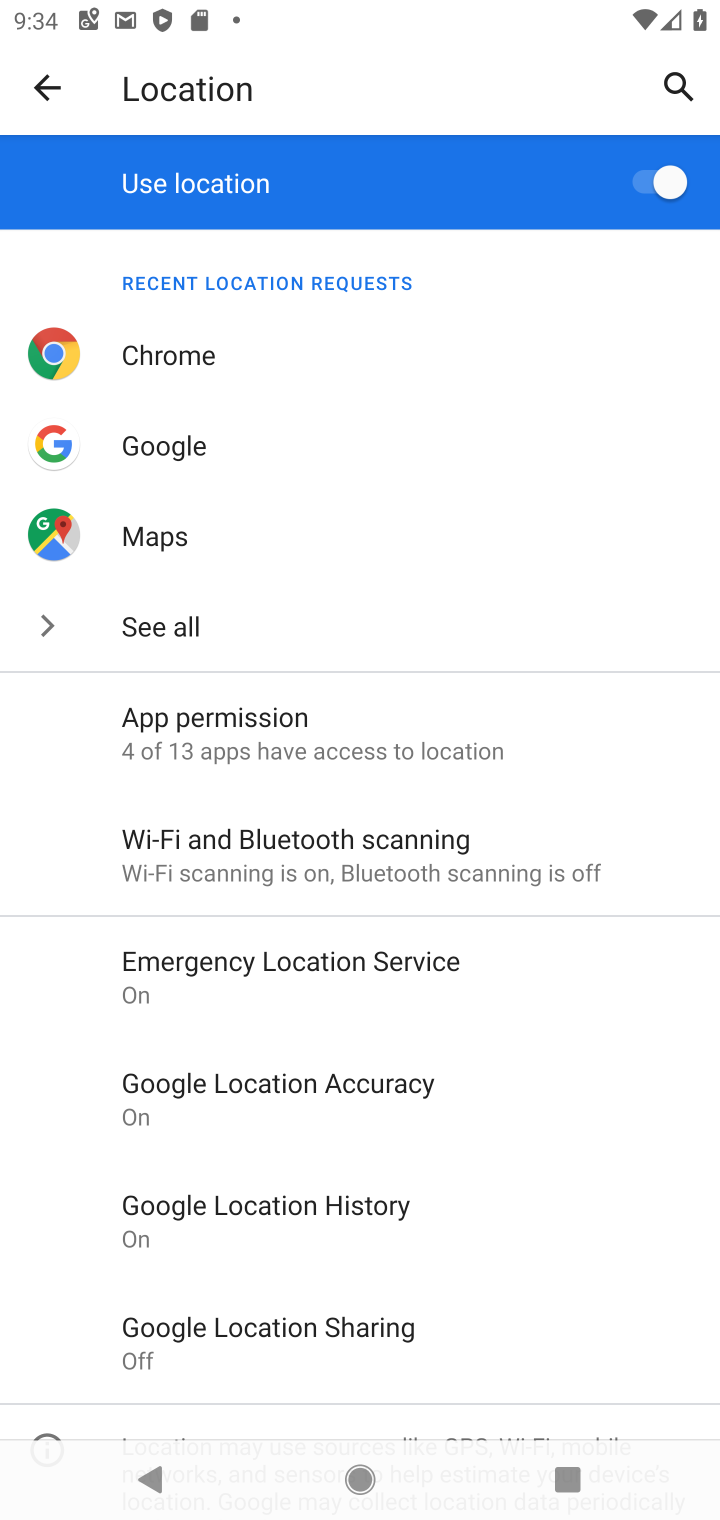
Step 34: task complete